Your task to perform on an android device: How much does a 2 bedroom apartment rent for in Los Angeles? Image 0: 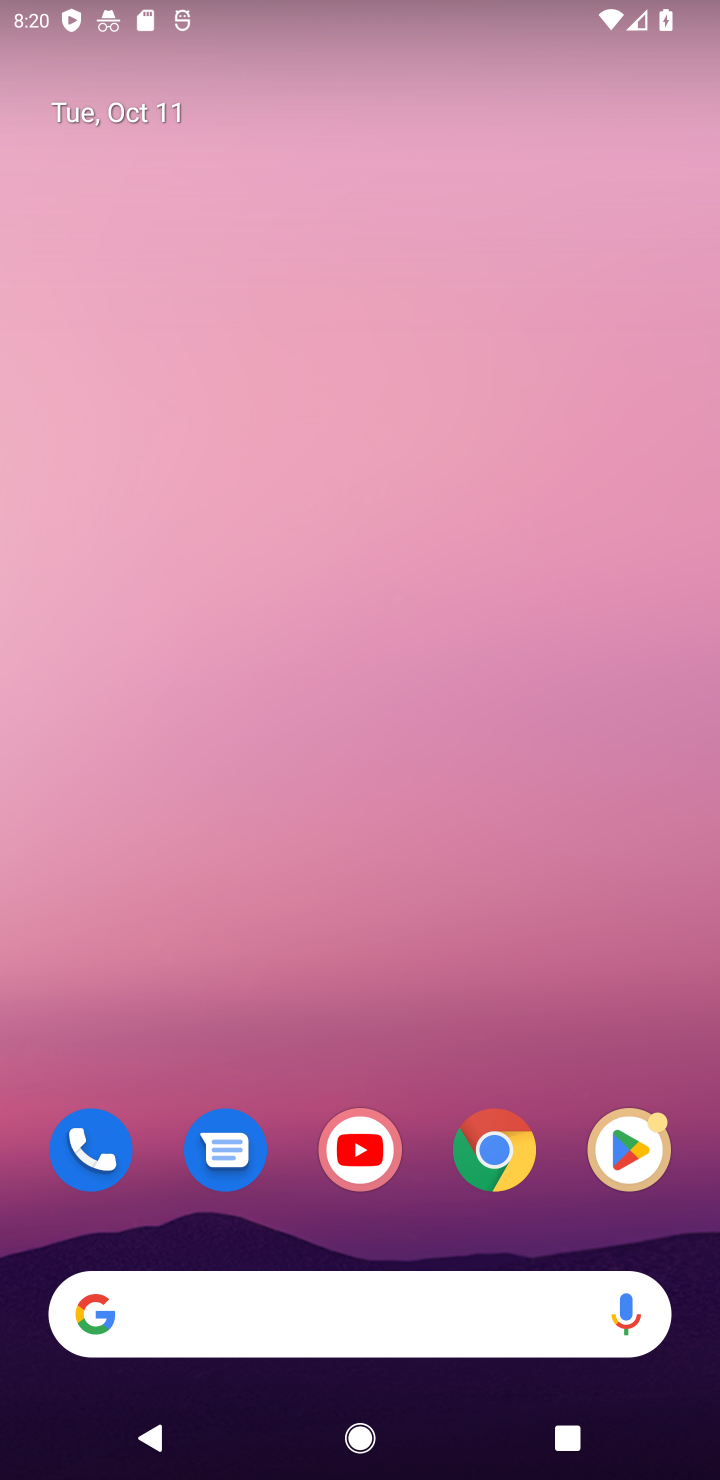
Step 0: click (496, 1157)
Your task to perform on an android device: How much does a 2 bedroom apartment rent for in Los Angeles? Image 1: 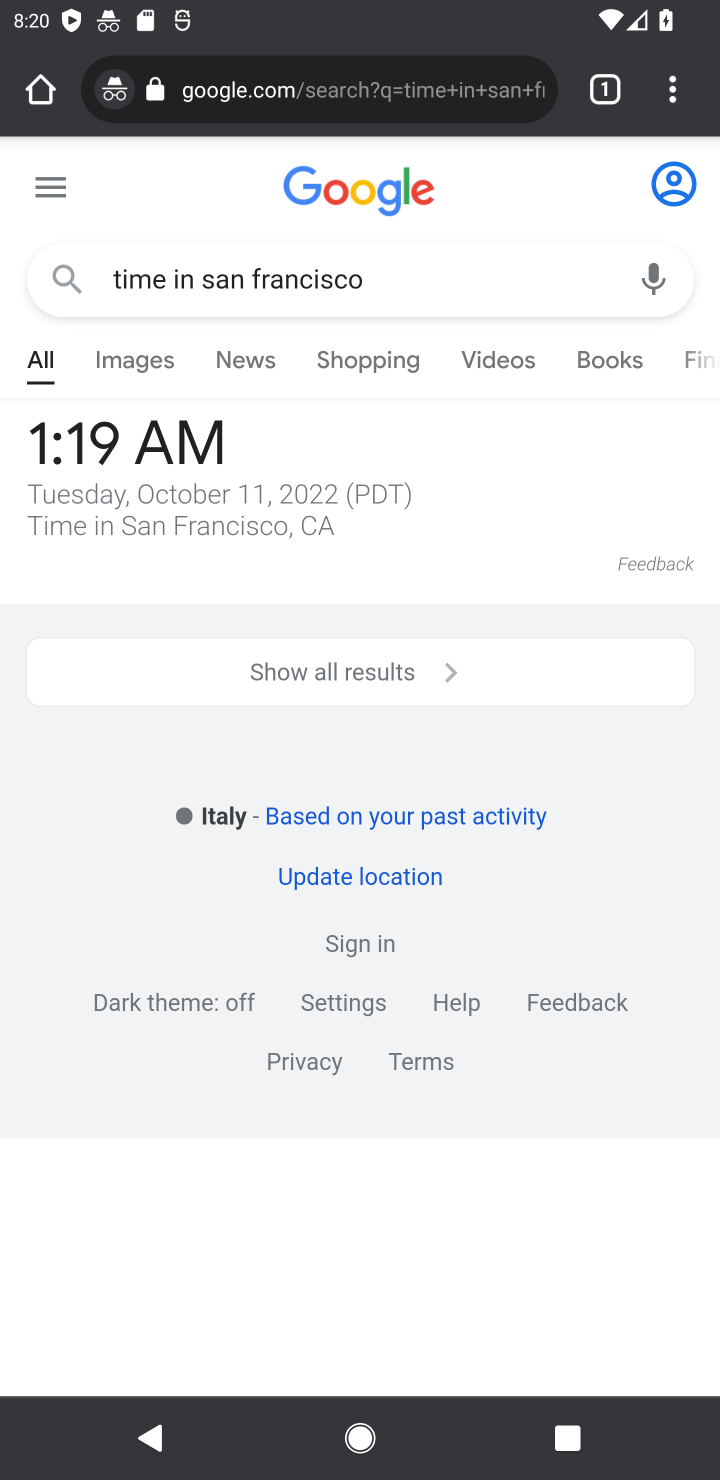
Step 1: click (267, 275)
Your task to perform on an android device: How much does a 2 bedroom apartment rent for in Los Angeles? Image 2: 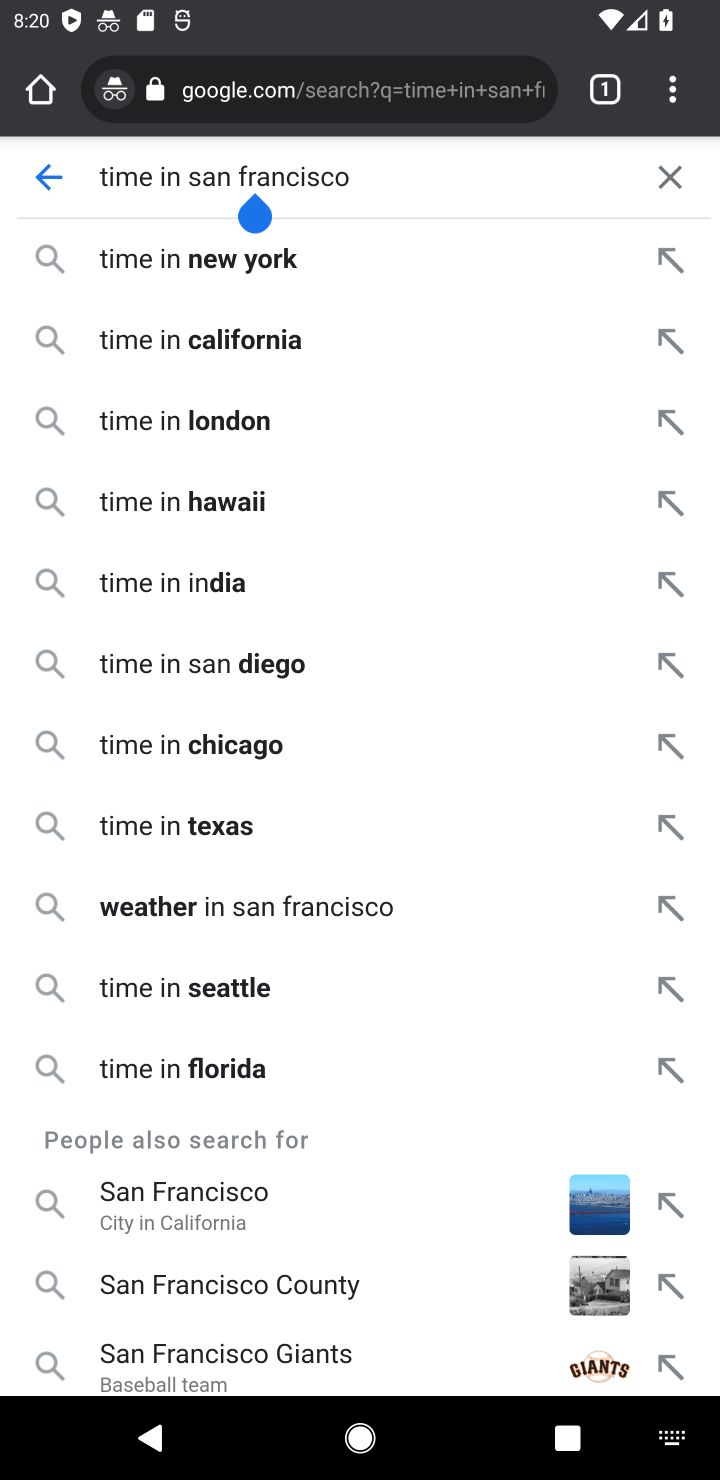
Step 2: click (392, 108)
Your task to perform on an android device: How much does a 2 bedroom apartment rent for in Los Angeles? Image 3: 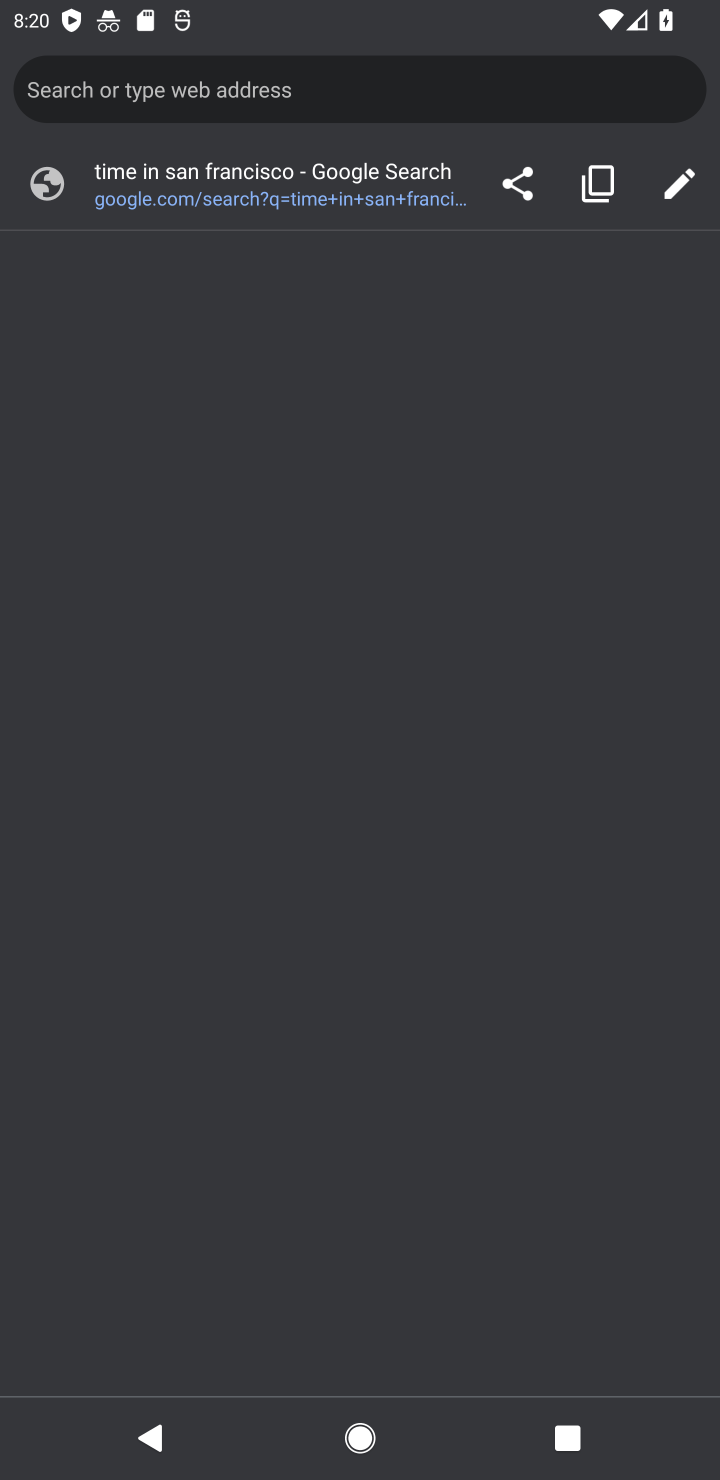
Step 3: type "rent of 2 bedroom apartment in los angeles"
Your task to perform on an android device: How much does a 2 bedroom apartment rent for in Los Angeles? Image 4: 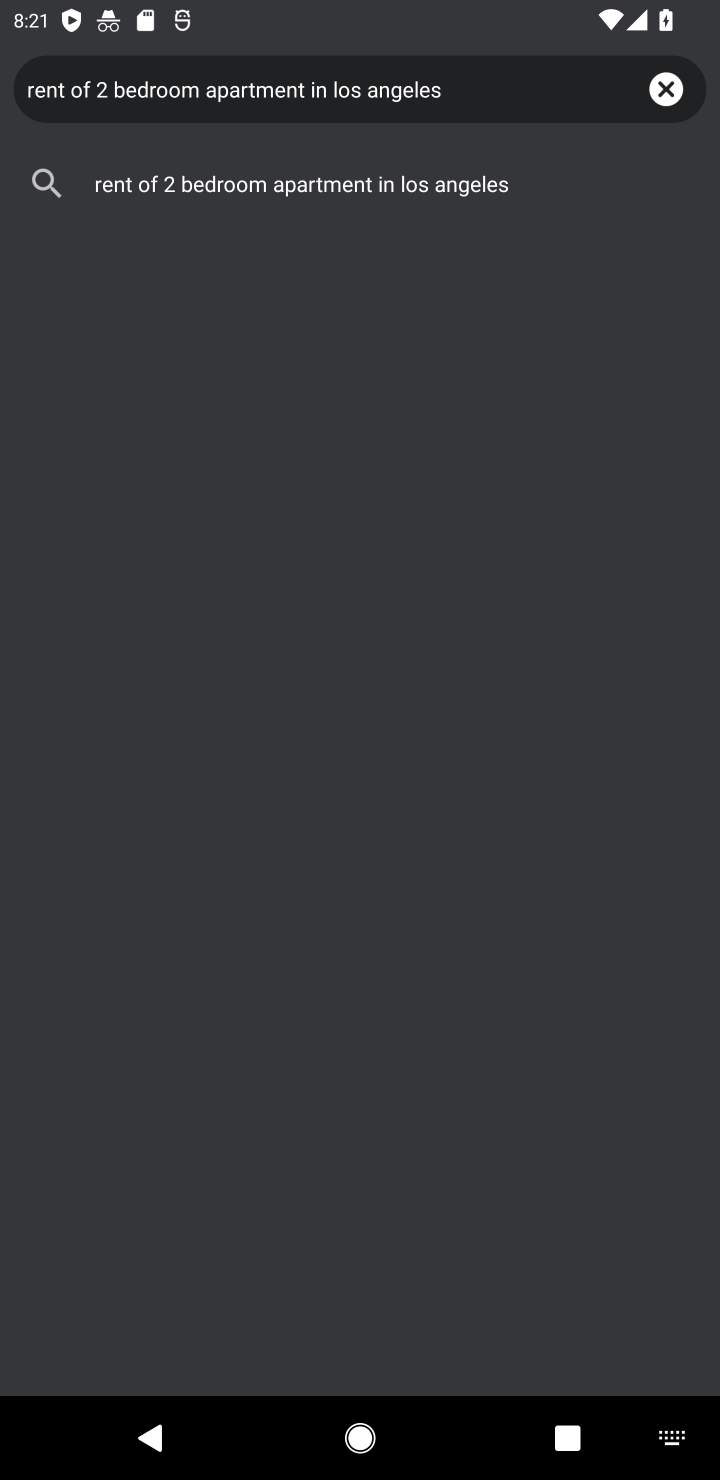
Step 4: click (335, 180)
Your task to perform on an android device: How much does a 2 bedroom apartment rent for in Los Angeles? Image 5: 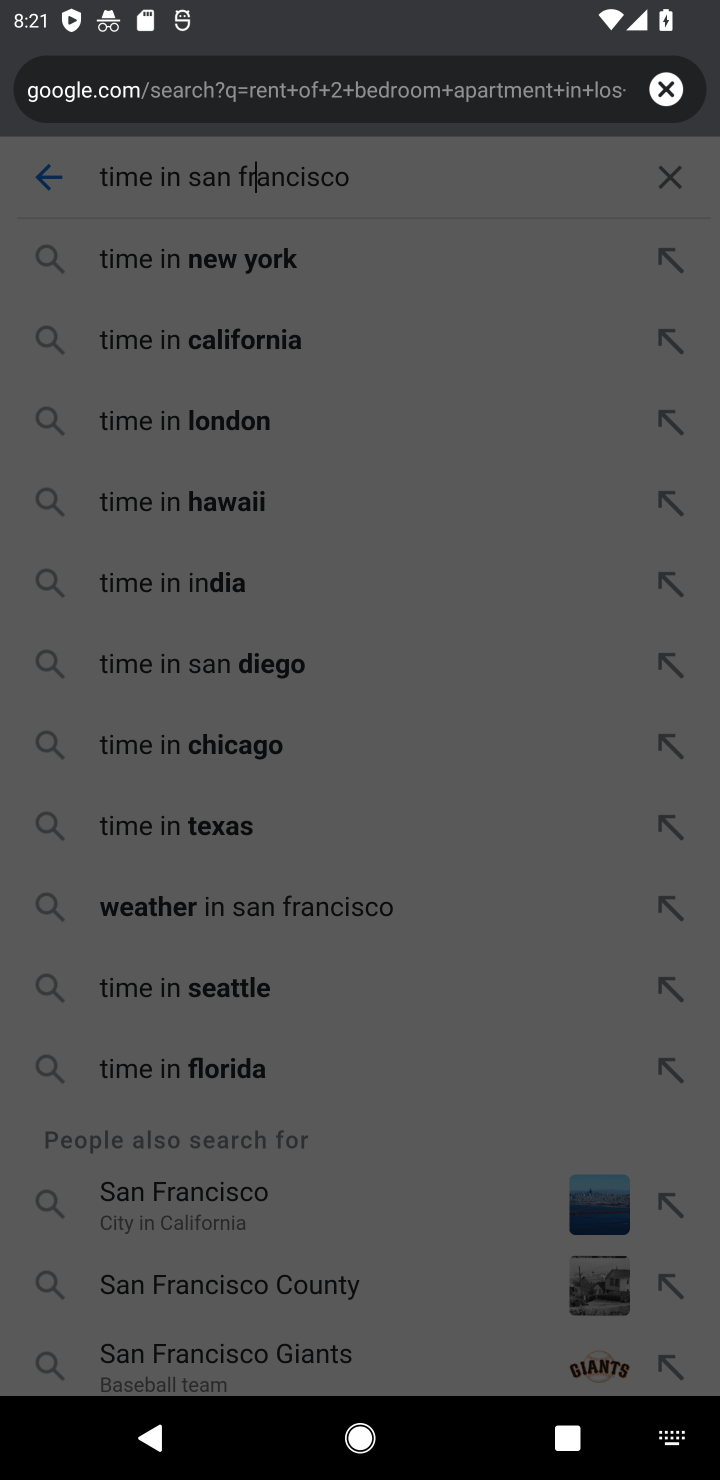
Step 5: click (328, 189)
Your task to perform on an android device: How much does a 2 bedroom apartment rent for in Los Angeles? Image 6: 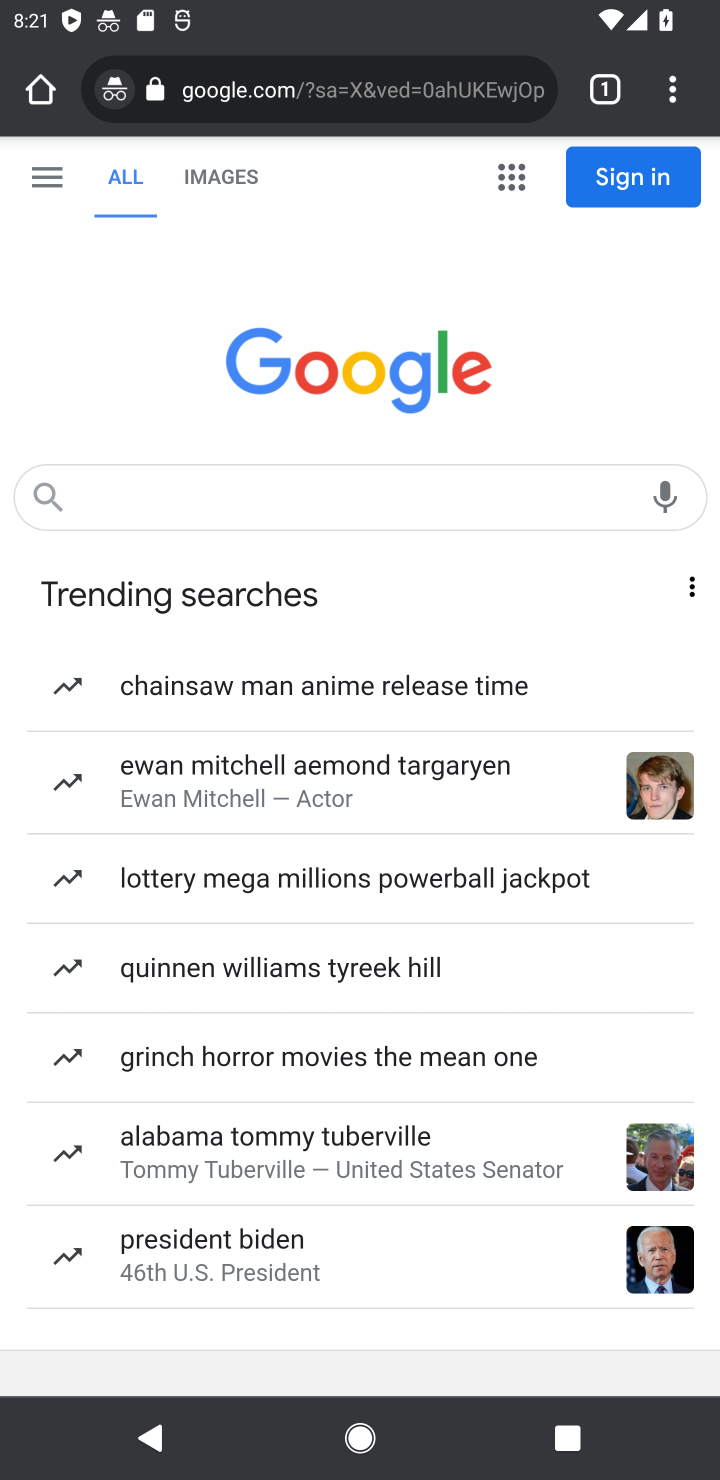
Step 6: click (326, 493)
Your task to perform on an android device: How much does a 2 bedroom apartment rent for in Los Angeles? Image 7: 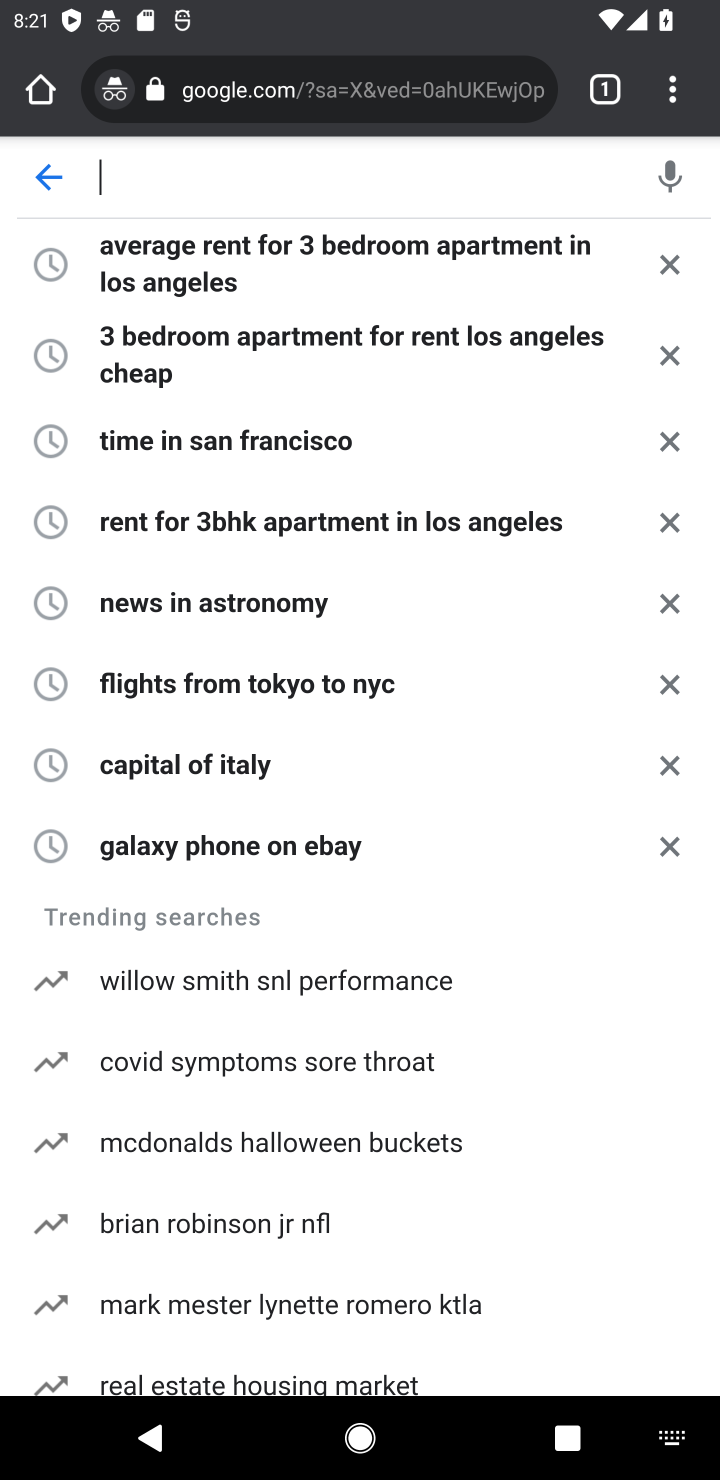
Step 7: click (225, 179)
Your task to perform on an android device: How much does a 2 bedroom apartment rent for in Los Angeles? Image 8: 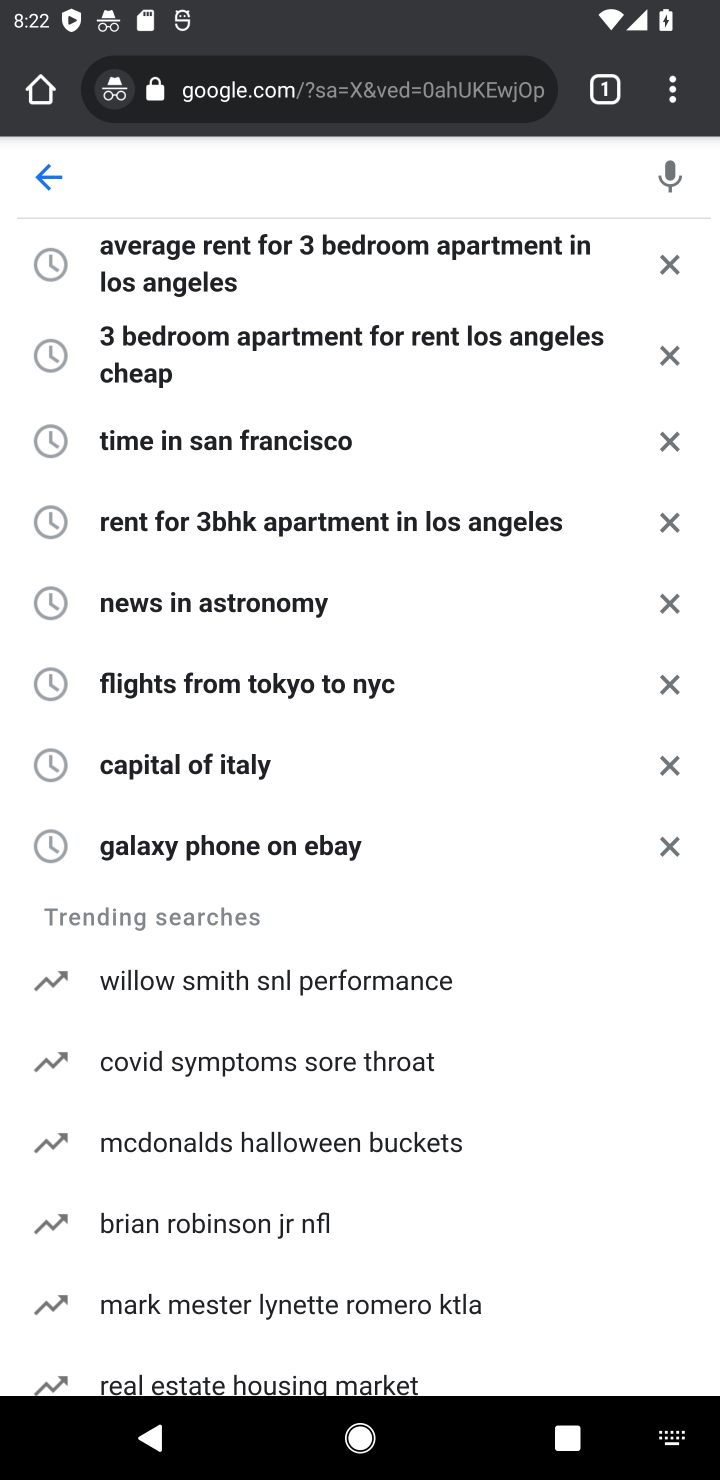
Step 8: type "rent of 2 bedroom apartment in los angeles "
Your task to perform on an android device: How much does a 2 bedroom apartment rent for in Los Angeles? Image 9: 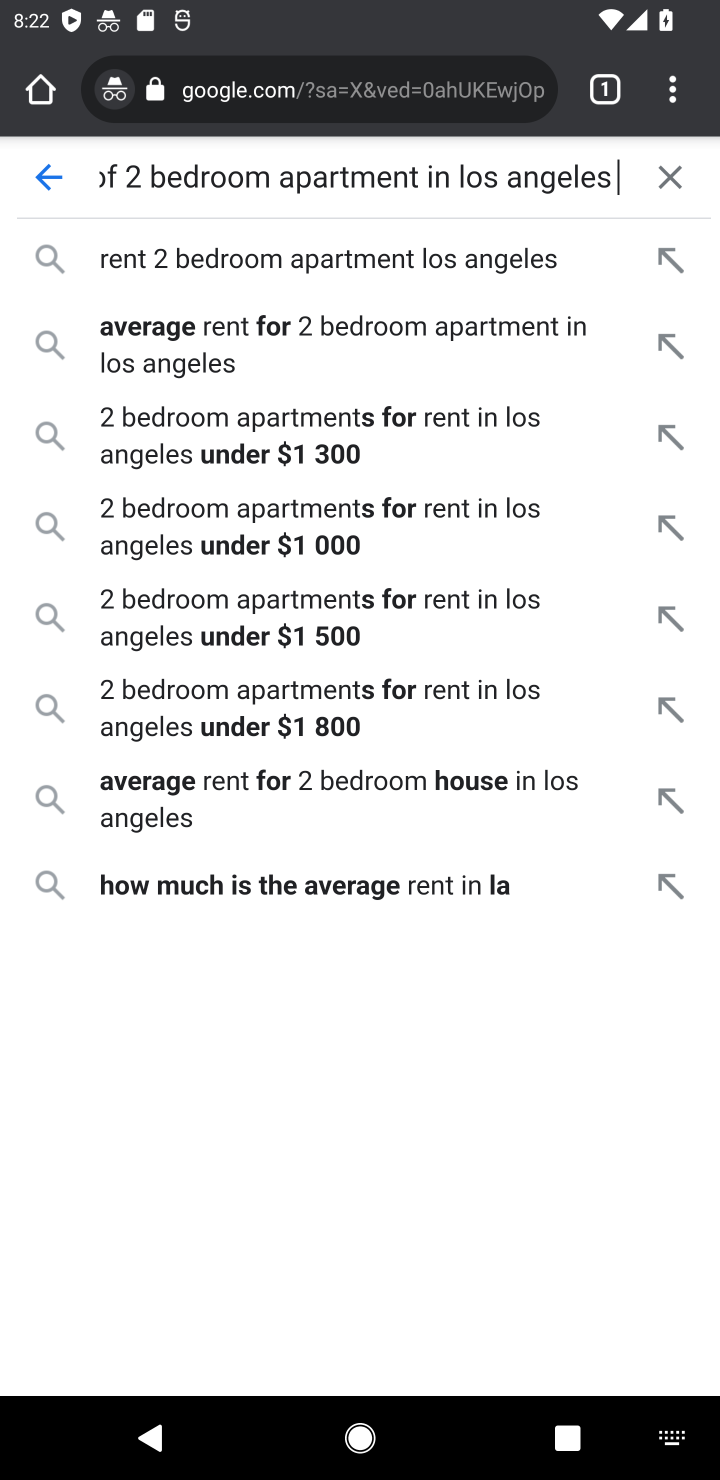
Step 9: click (216, 259)
Your task to perform on an android device: How much does a 2 bedroom apartment rent for in Los Angeles? Image 10: 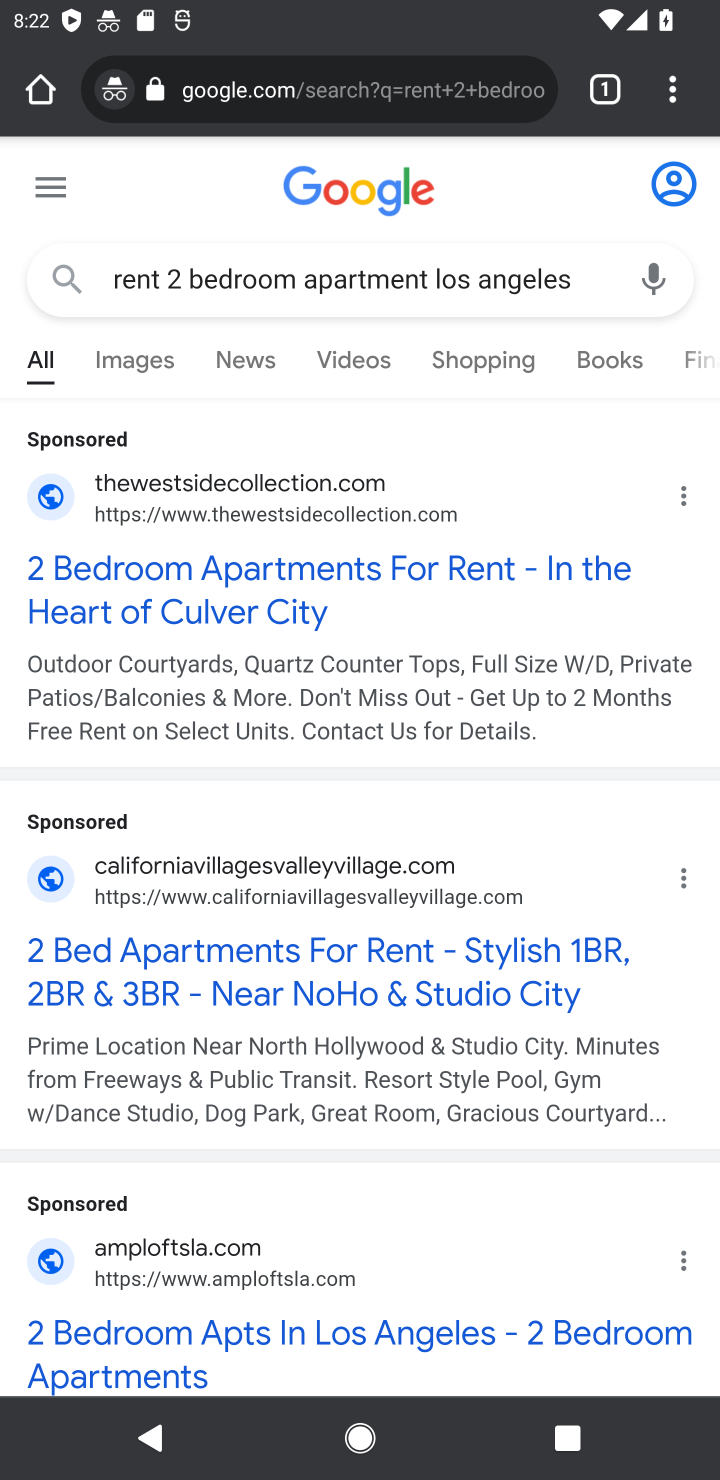
Step 10: click (273, 566)
Your task to perform on an android device: How much does a 2 bedroom apartment rent for in Los Angeles? Image 11: 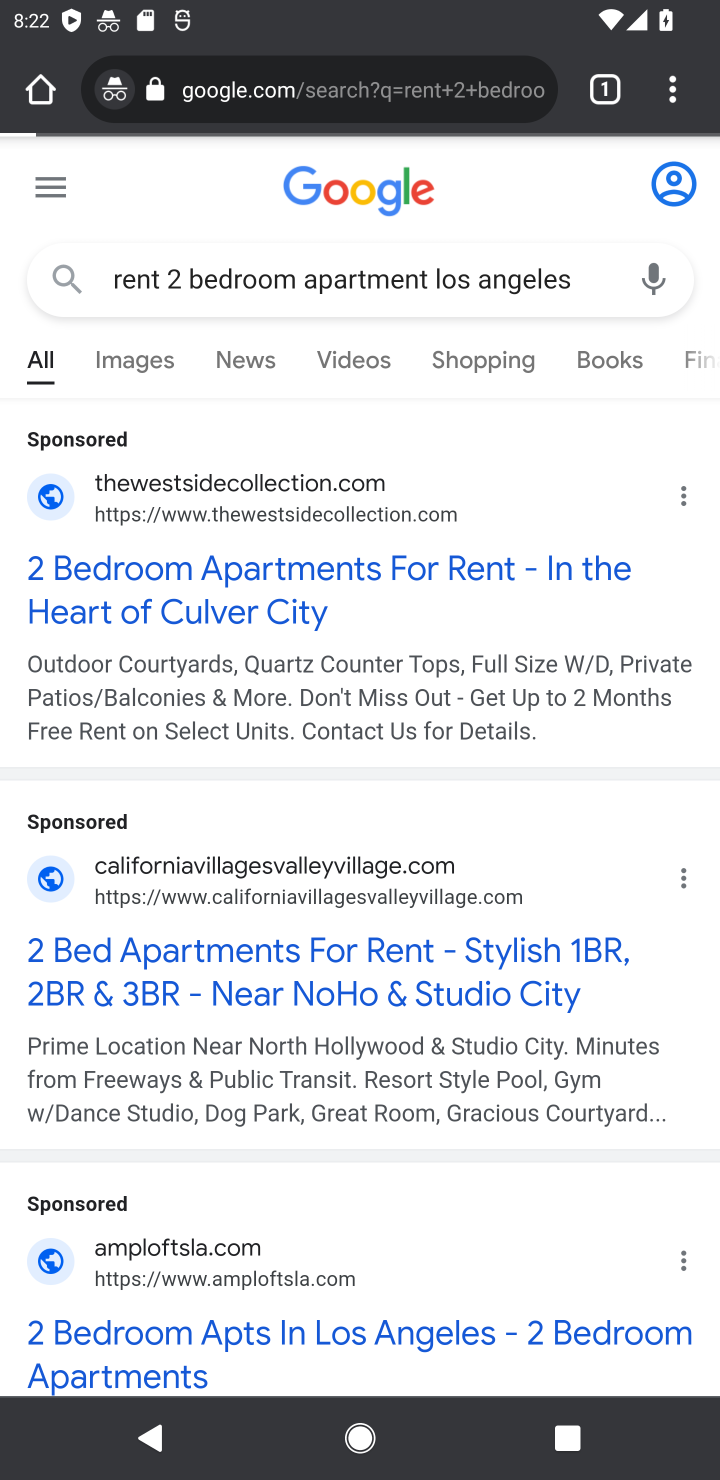
Step 11: click (190, 485)
Your task to perform on an android device: How much does a 2 bedroom apartment rent for in Los Angeles? Image 12: 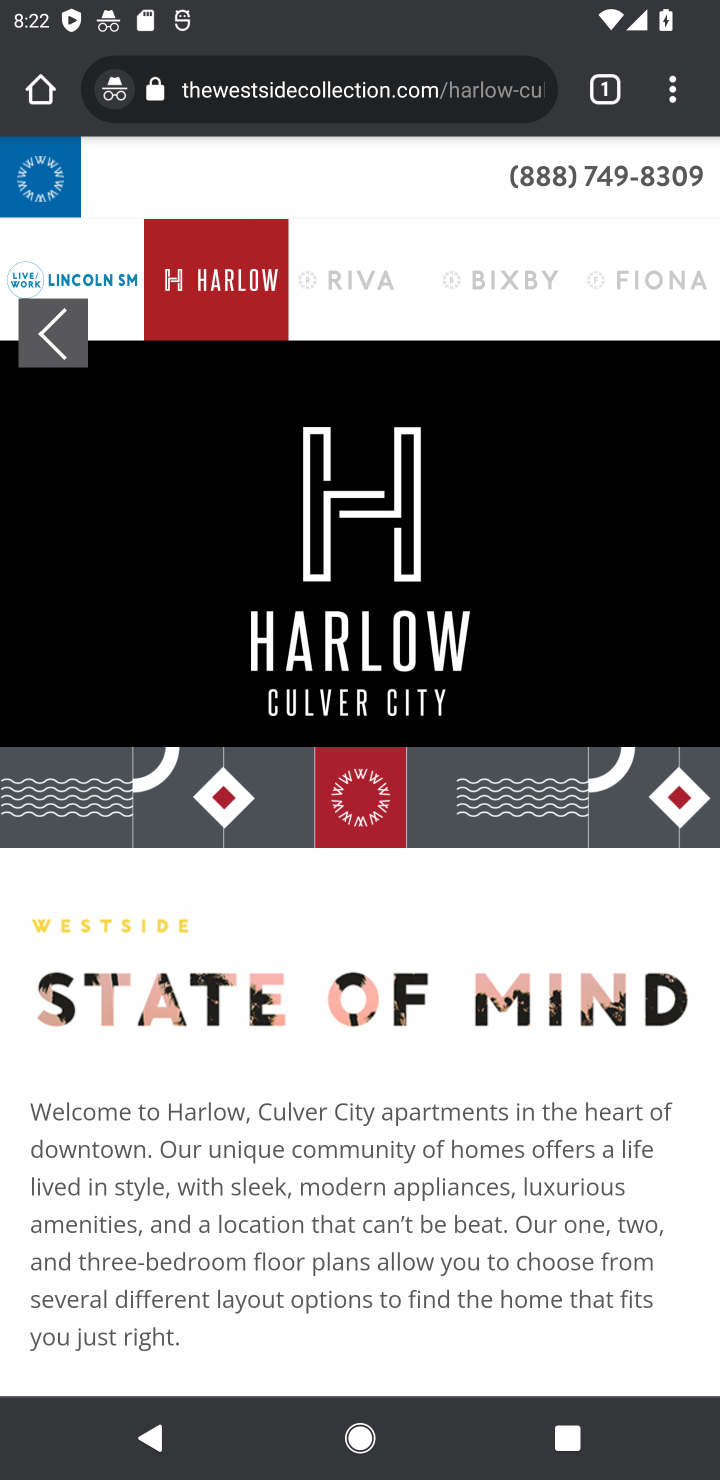
Step 12: drag from (360, 964) to (377, 423)
Your task to perform on an android device: How much does a 2 bedroom apartment rent for in Los Angeles? Image 13: 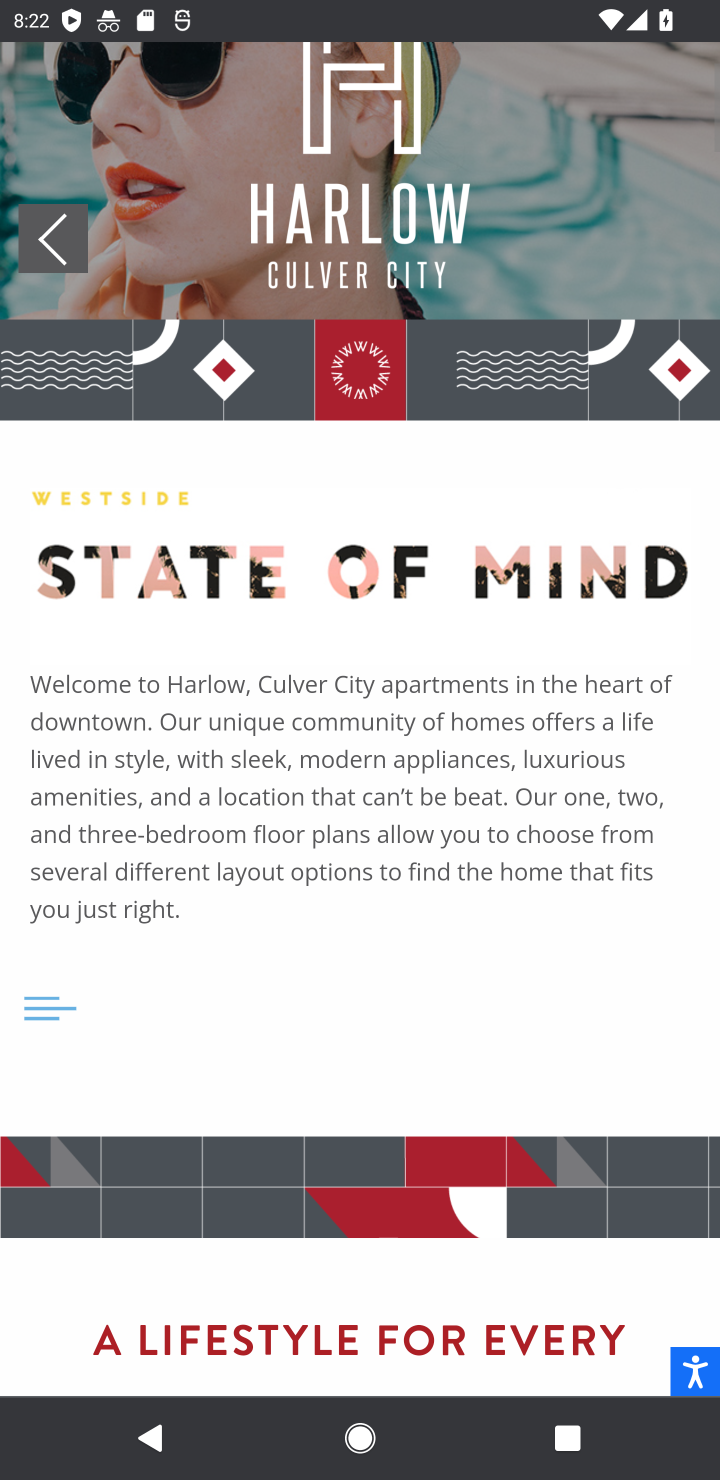
Step 13: drag from (420, 732) to (422, 214)
Your task to perform on an android device: How much does a 2 bedroom apartment rent for in Los Angeles? Image 14: 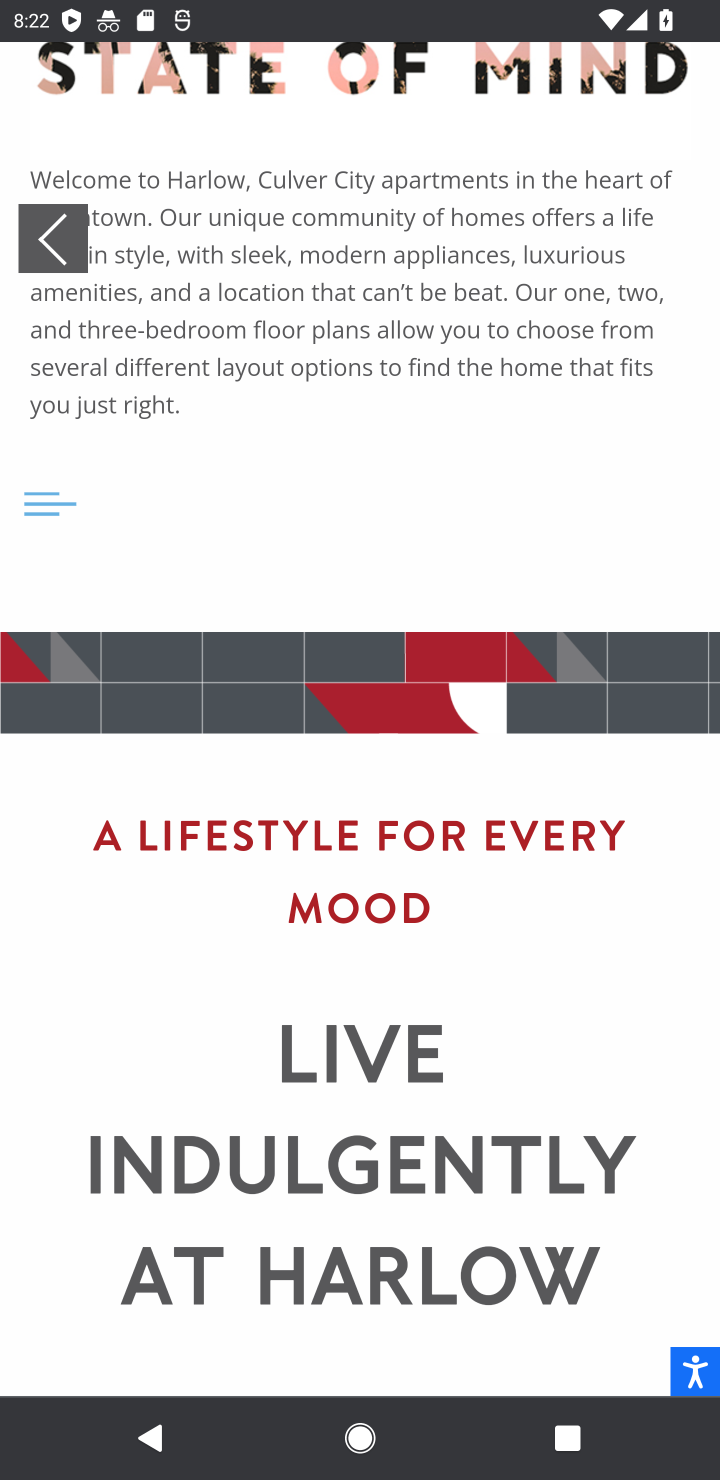
Step 14: drag from (374, 1045) to (375, 128)
Your task to perform on an android device: How much does a 2 bedroom apartment rent for in Los Angeles? Image 15: 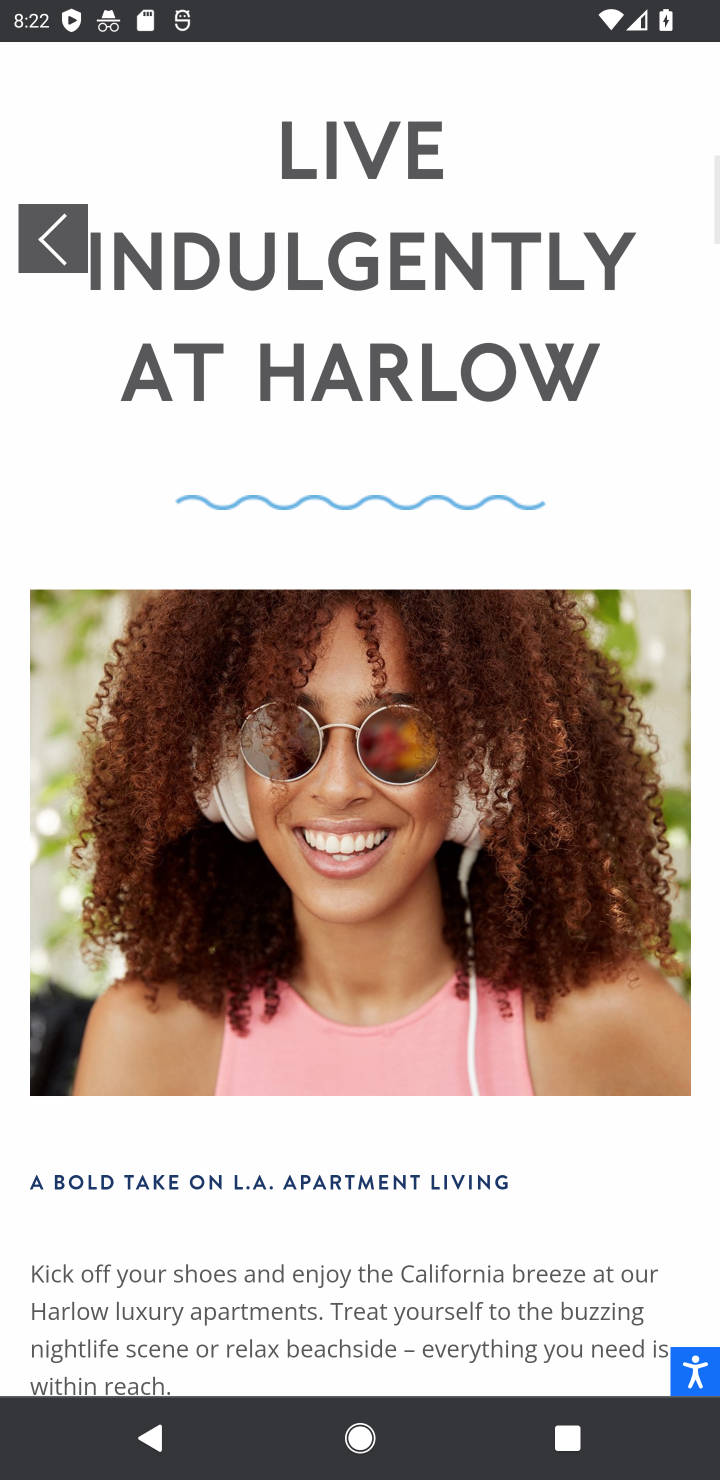
Step 15: drag from (354, 765) to (358, 246)
Your task to perform on an android device: How much does a 2 bedroom apartment rent for in Los Angeles? Image 16: 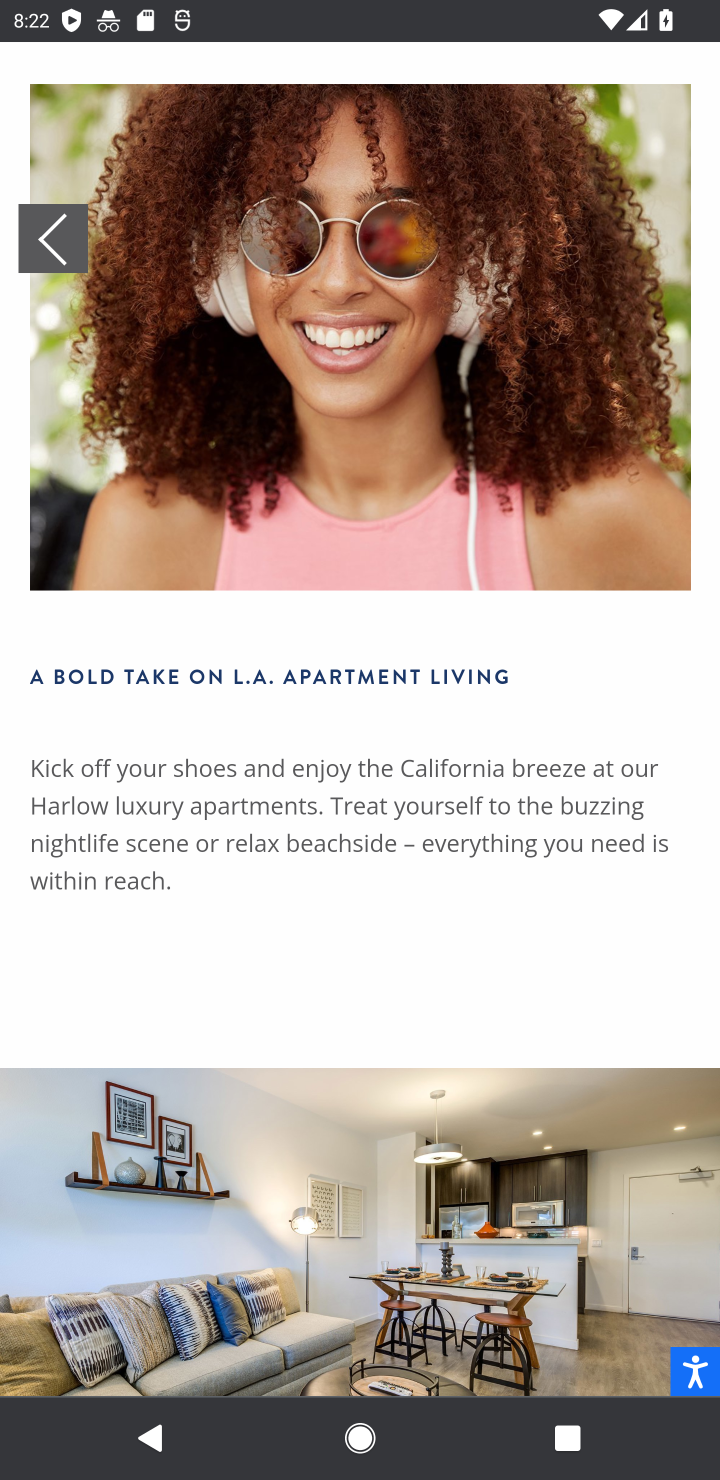
Step 16: drag from (358, 935) to (332, 434)
Your task to perform on an android device: How much does a 2 bedroom apartment rent for in Los Angeles? Image 17: 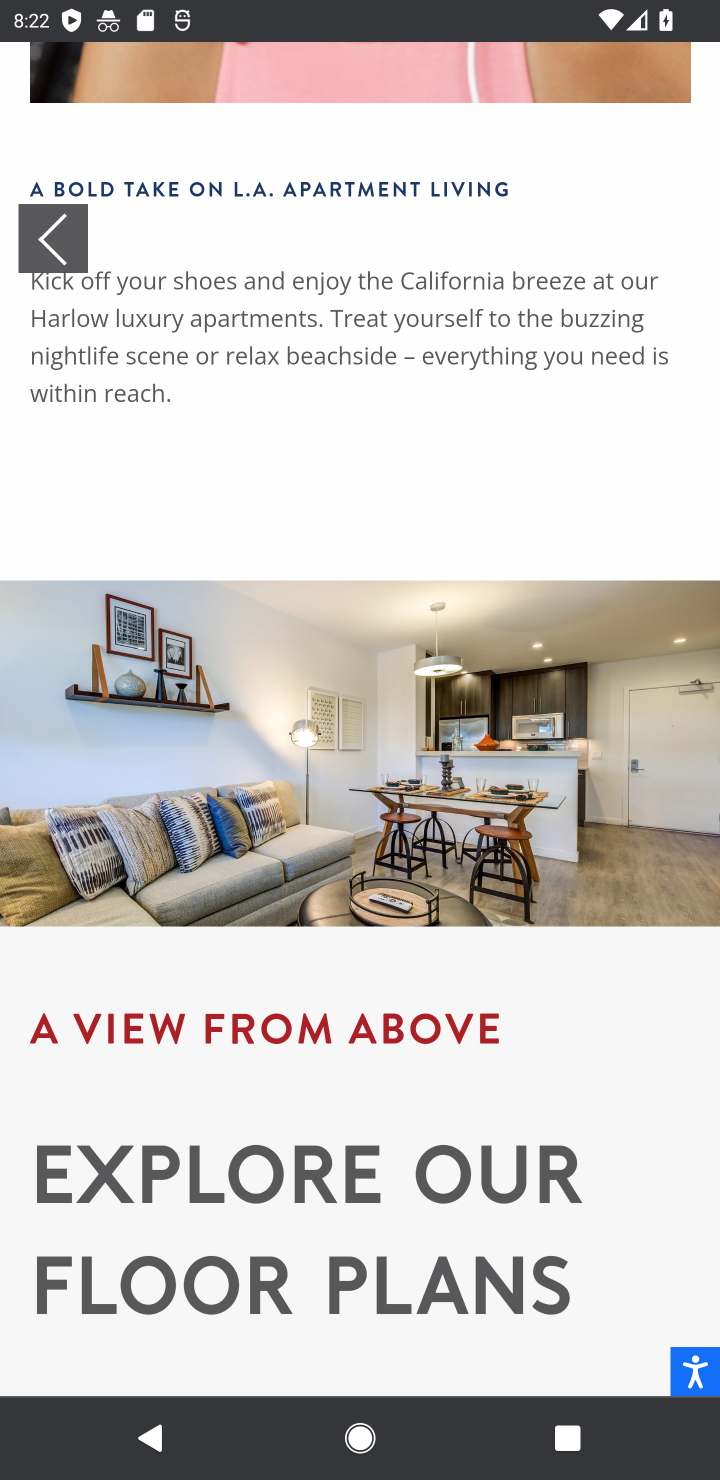
Step 17: drag from (330, 462) to (336, 1475)
Your task to perform on an android device: How much does a 2 bedroom apartment rent for in Los Angeles? Image 18: 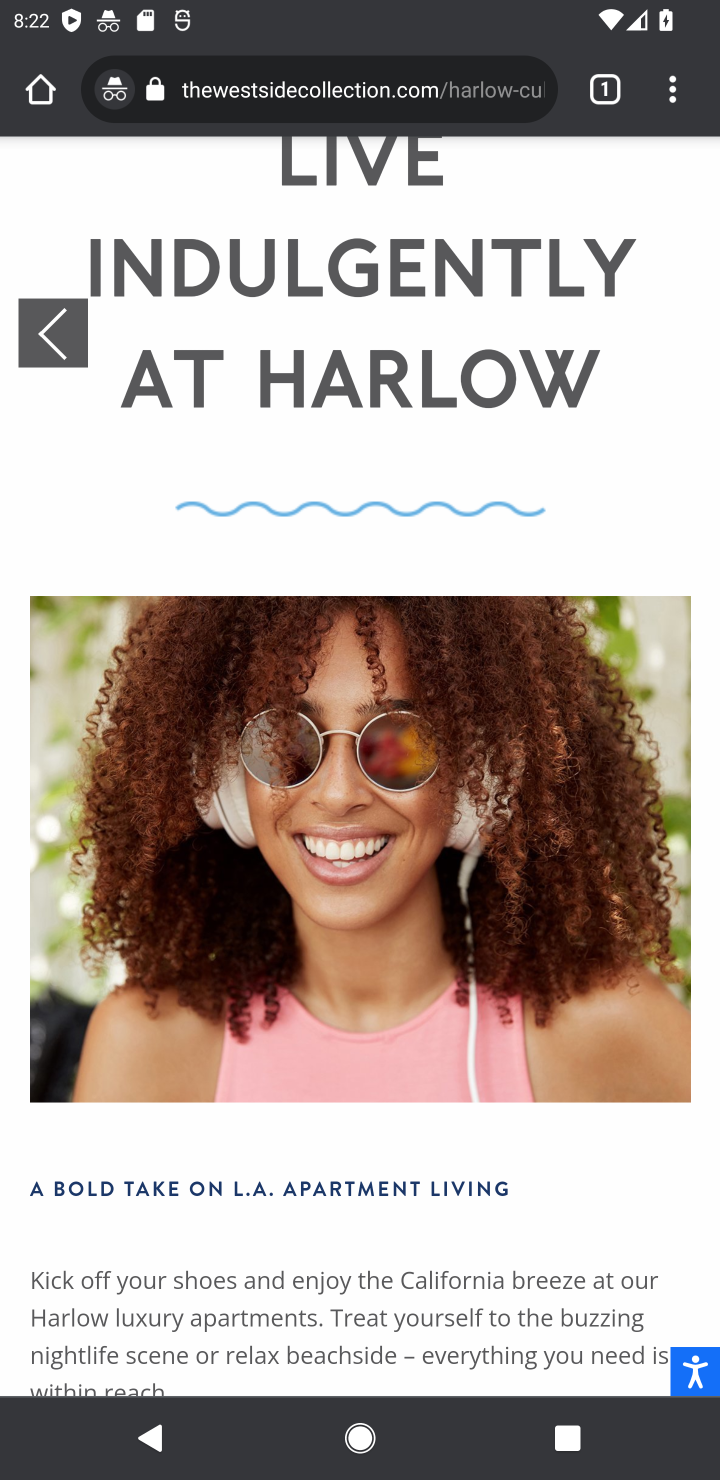
Step 18: drag from (367, 377) to (398, 1110)
Your task to perform on an android device: How much does a 2 bedroom apartment rent for in Los Angeles? Image 19: 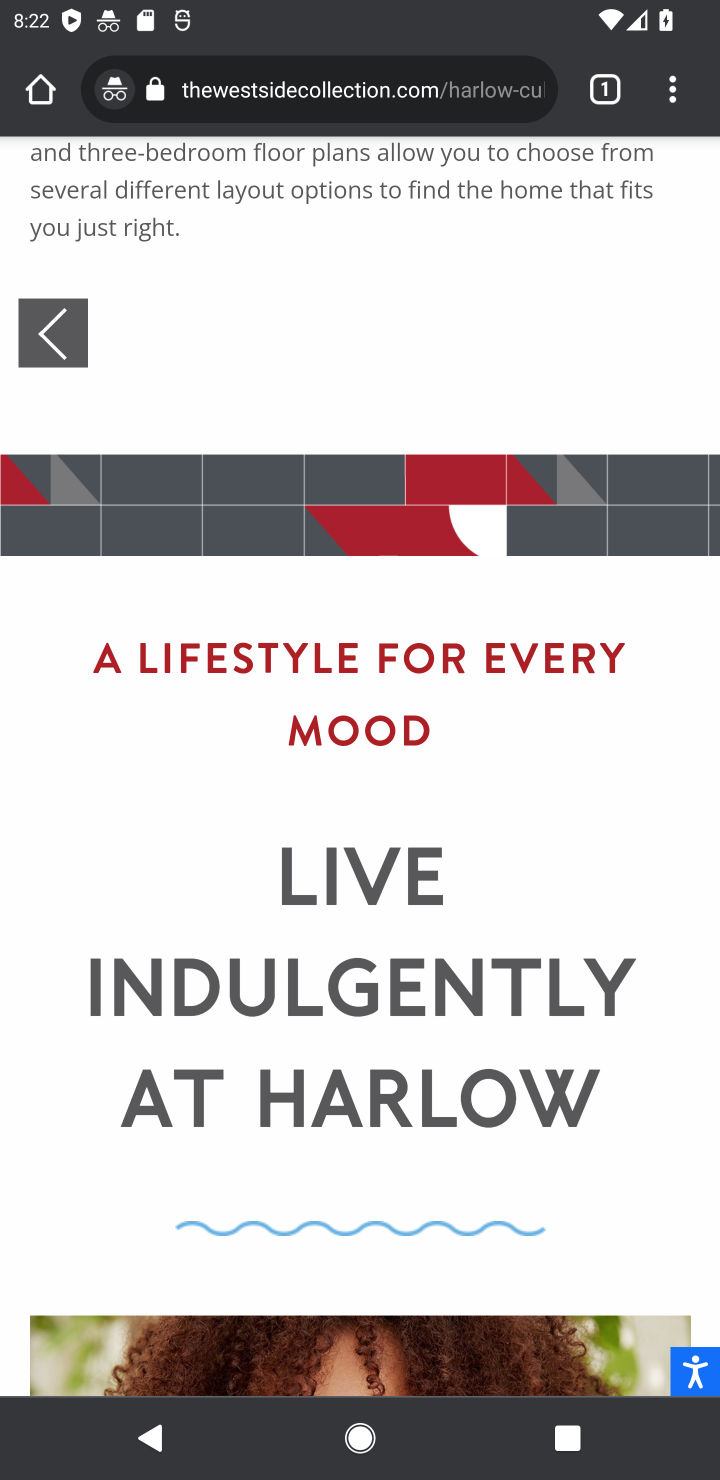
Step 19: drag from (328, 444) to (353, 1238)
Your task to perform on an android device: How much does a 2 bedroom apartment rent for in Los Angeles? Image 20: 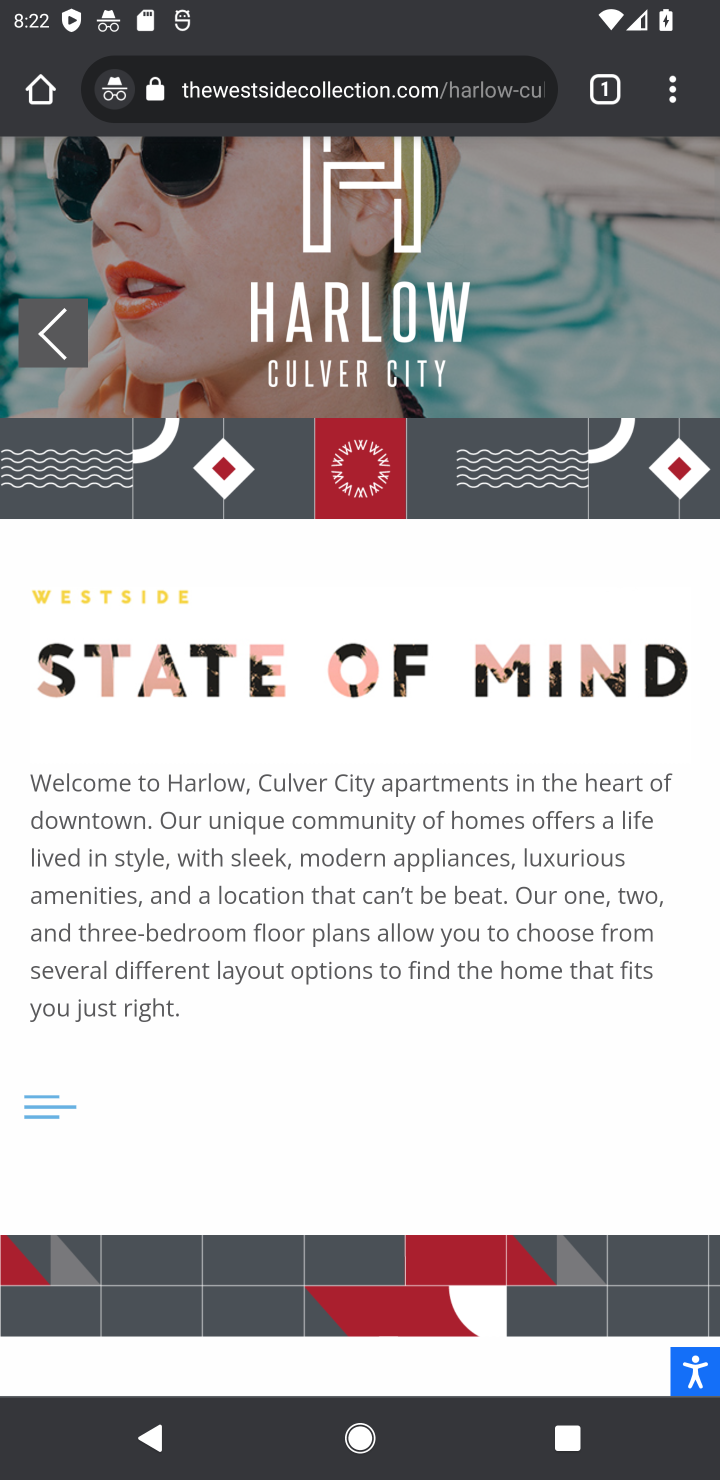
Step 20: drag from (258, 773) to (268, 1195)
Your task to perform on an android device: How much does a 2 bedroom apartment rent for in Los Angeles? Image 21: 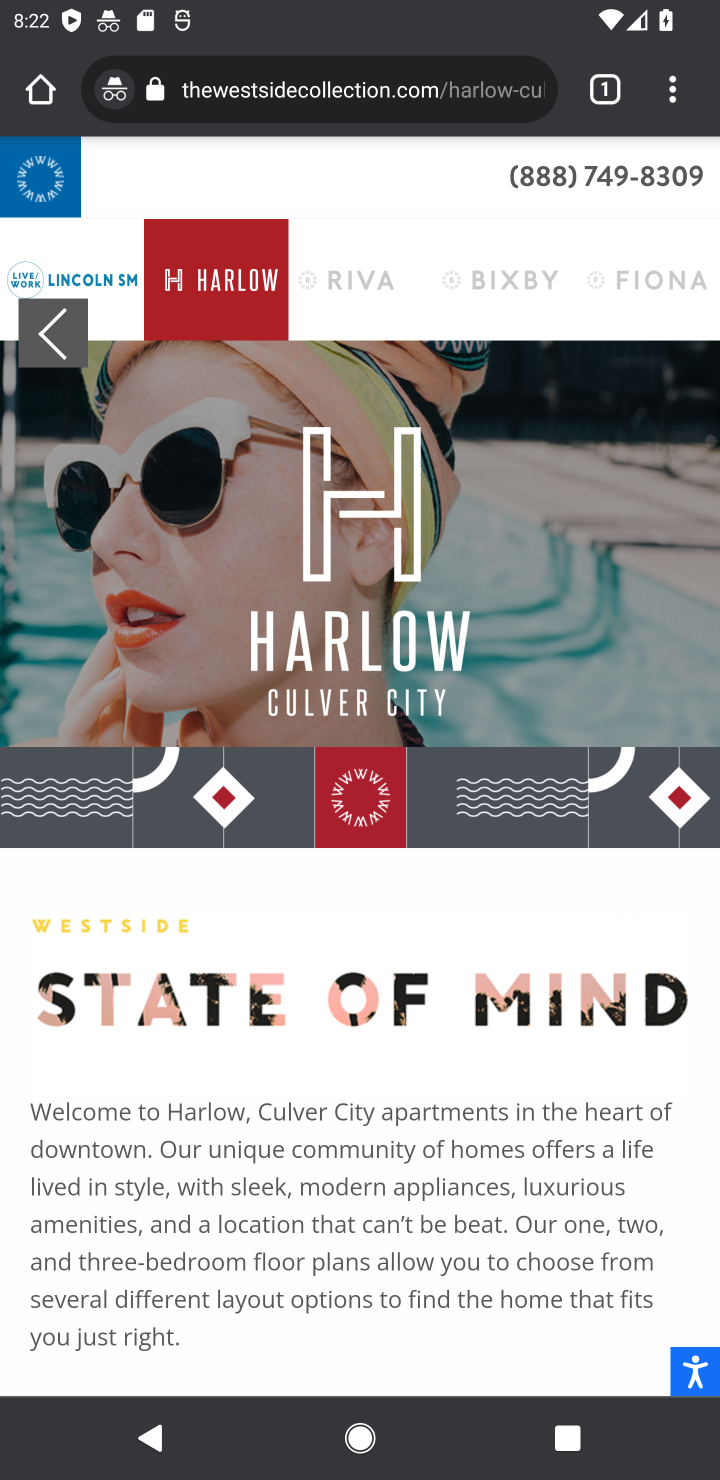
Step 21: press back button
Your task to perform on an android device: How much does a 2 bedroom apartment rent for in Los Angeles? Image 22: 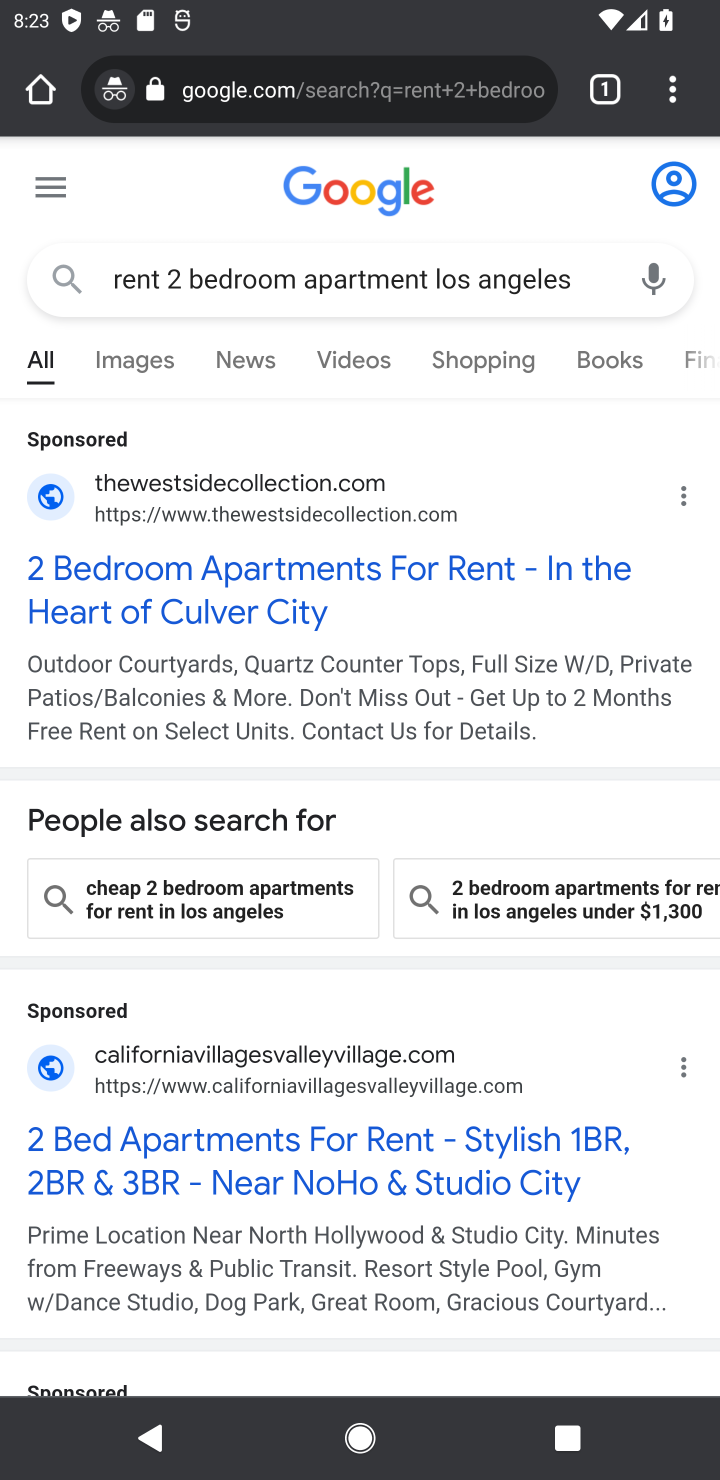
Step 22: click (233, 1160)
Your task to perform on an android device: How much does a 2 bedroom apartment rent for in Los Angeles? Image 23: 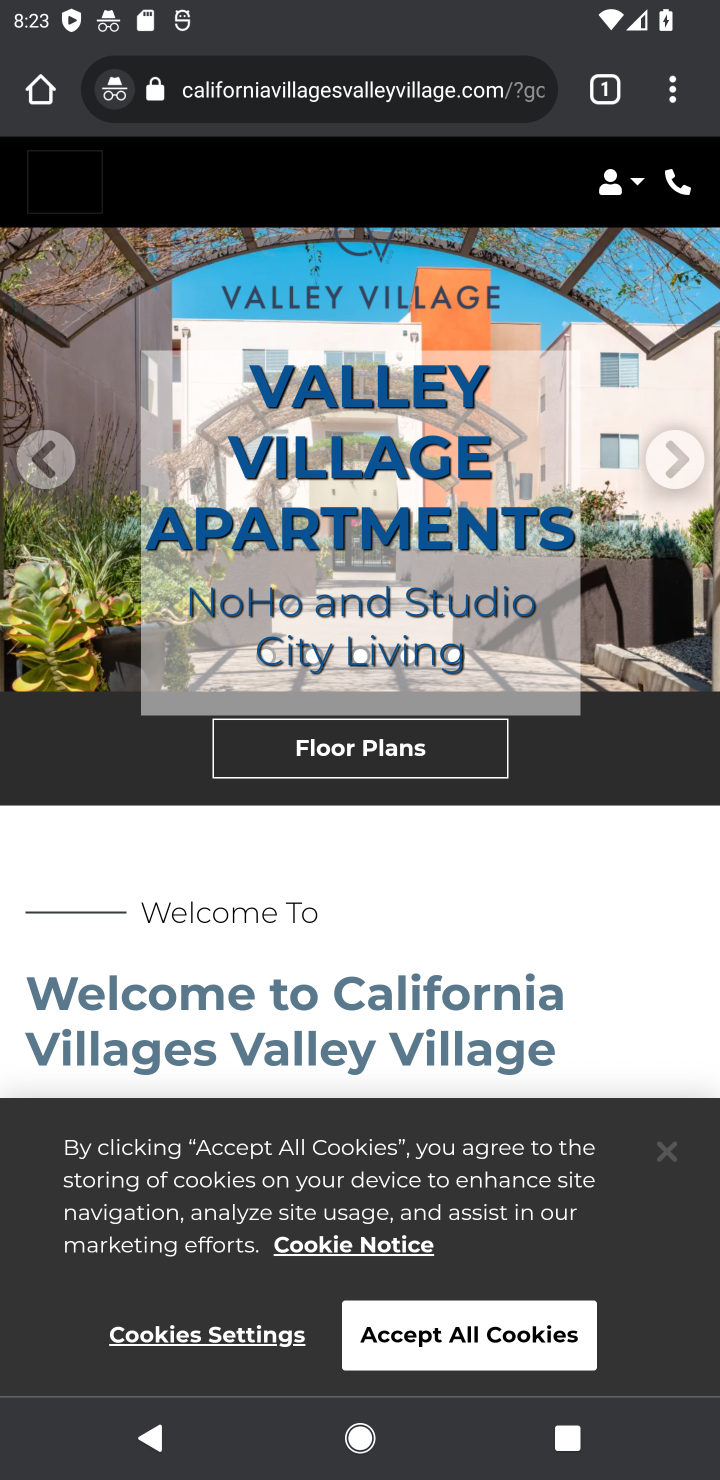
Step 23: drag from (336, 971) to (271, 488)
Your task to perform on an android device: How much does a 2 bedroom apartment rent for in Los Angeles? Image 24: 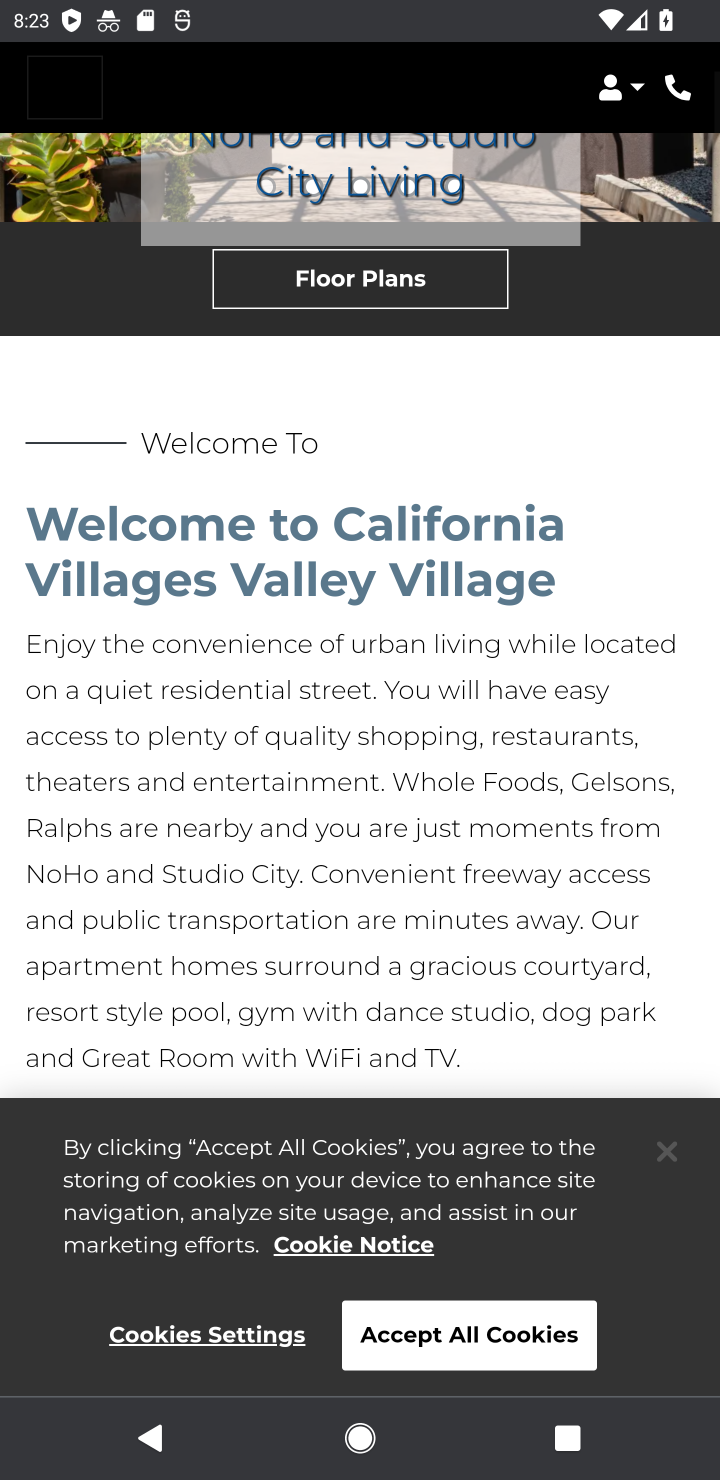
Step 24: drag from (342, 813) to (319, 391)
Your task to perform on an android device: How much does a 2 bedroom apartment rent for in Los Angeles? Image 25: 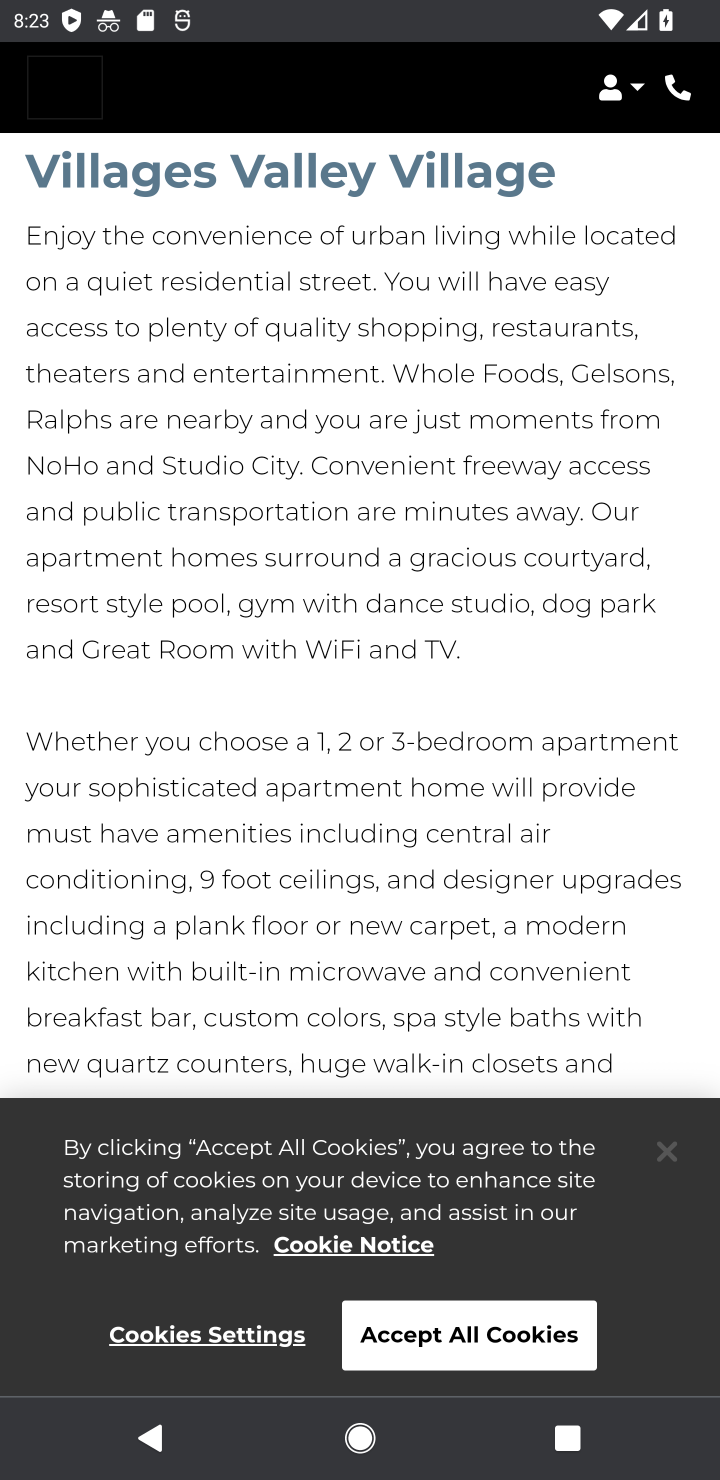
Step 25: drag from (336, 962) to (309, 359)
Your task to perform on an android device: How much does a 2 bedroom apartment rent for in Los Angeles? Image 26: 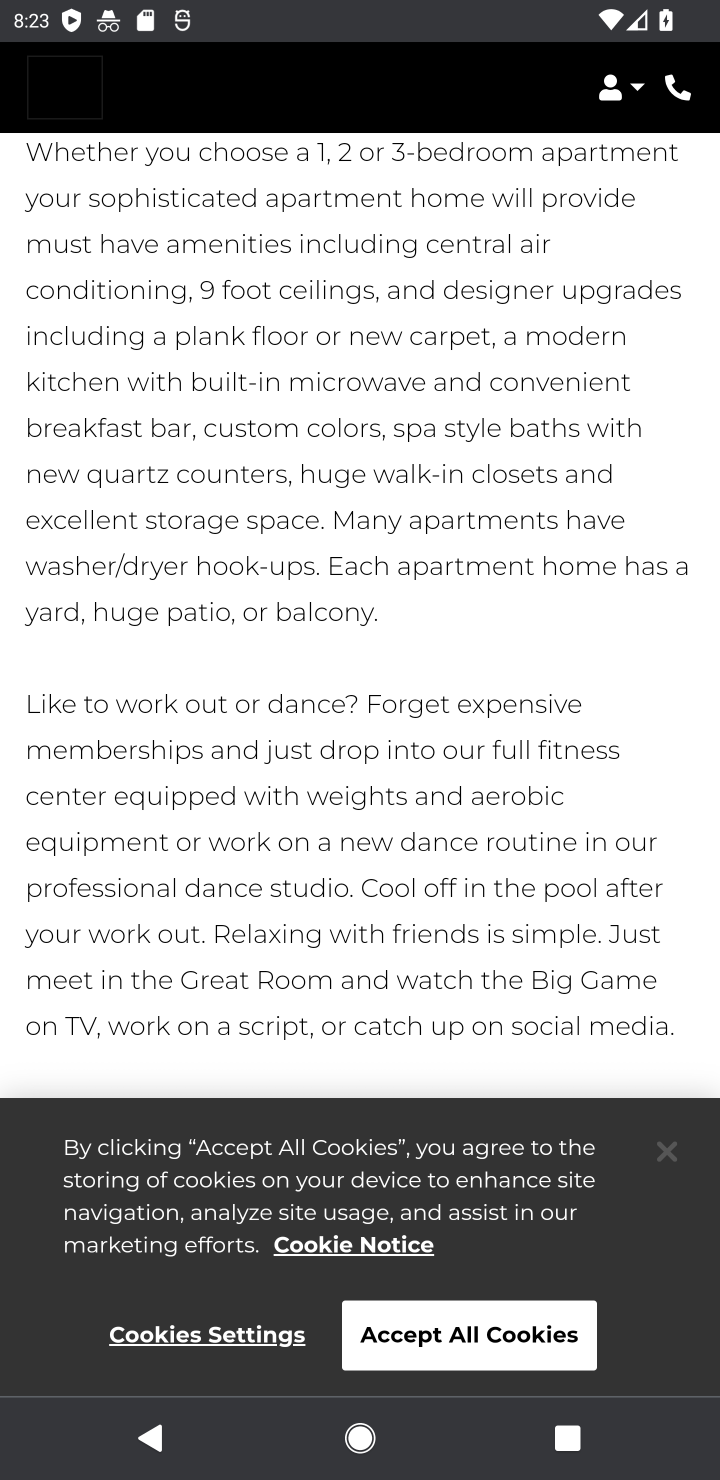
Step 26: drag from (338, 835) to (356, 398)
Your task to perform on an android device: How much does a 2 bedroom apartment rent for in Los Angeles? Image 27: 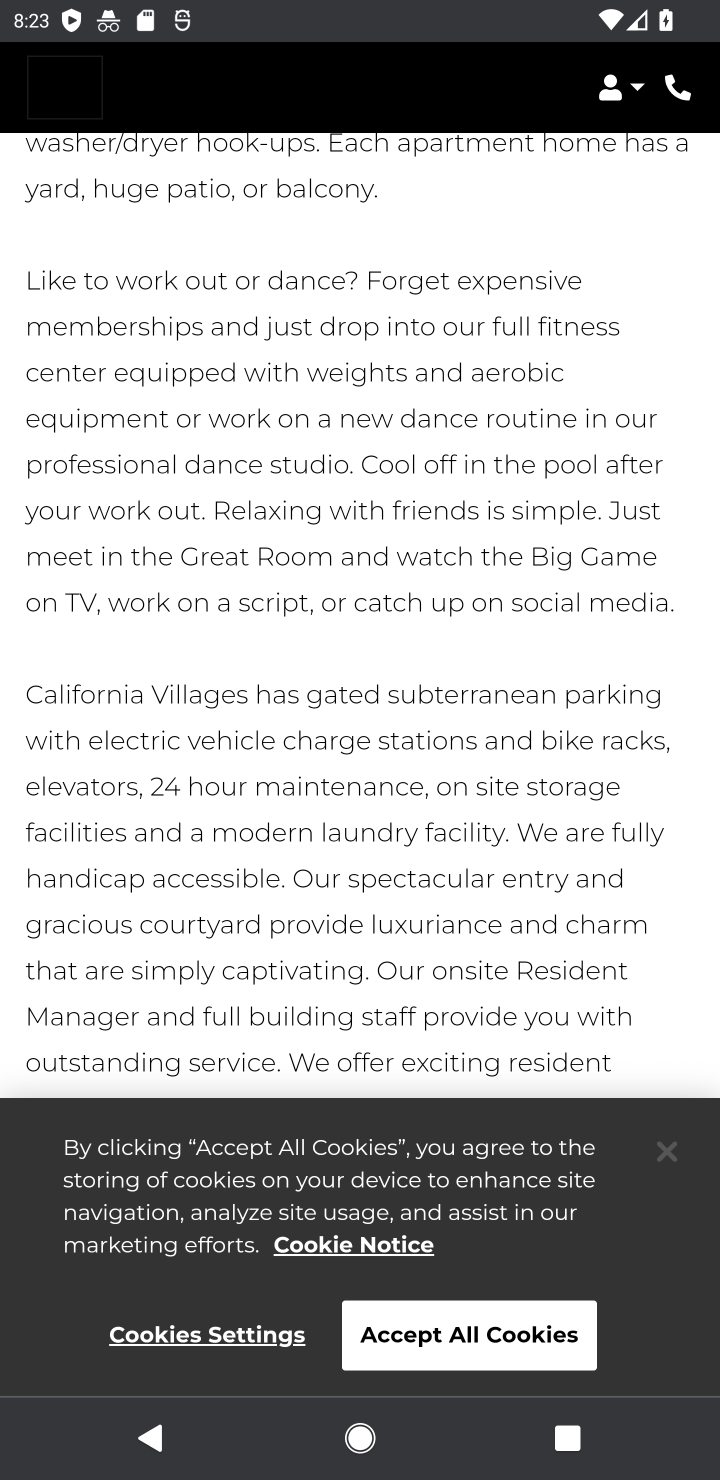
Step 27: drag from (357, 926) to (345, 388)
Your task to perform on an android device: How much does a 2 bedroom apartment rent for in Los Angeles? Image 28: 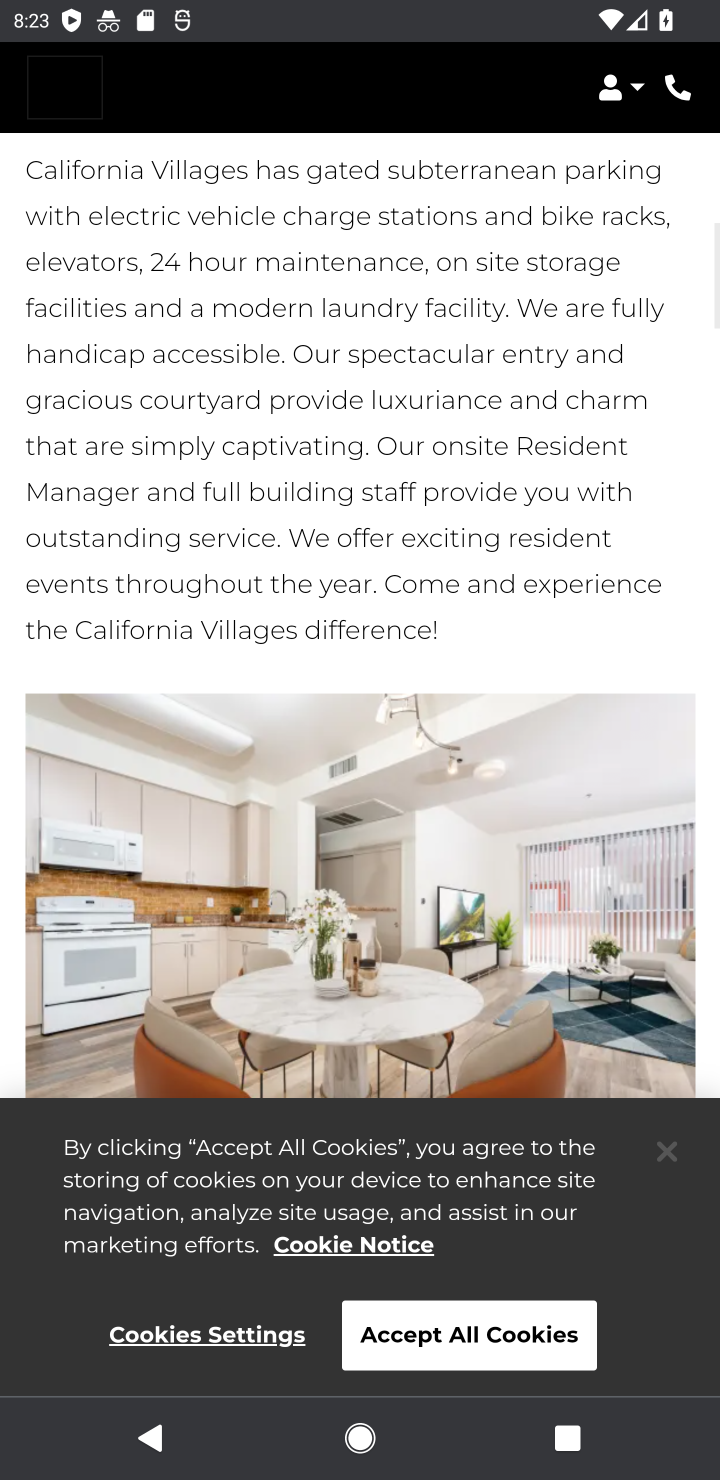
Step 28: drag from (285, 656) to (285, 347)
Your task to perform on an android device: How much does a 2 bedroom apartment rent for in Los Angeles? Image 29: 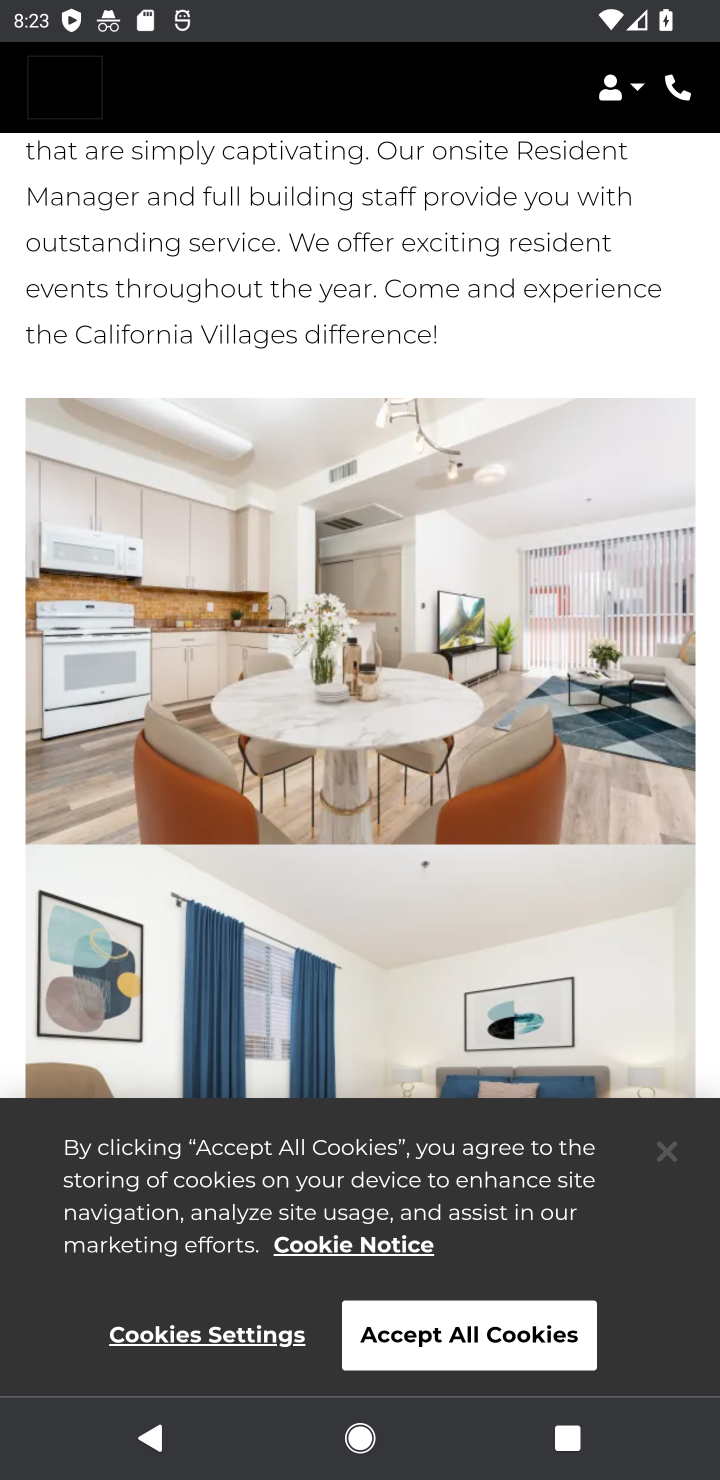
Step 29: drag from (272, 863) to (328, 353)
Your task to perform on an android device: How much does a 2 bedroom apartment rent for in Los Angeles? Image 30: 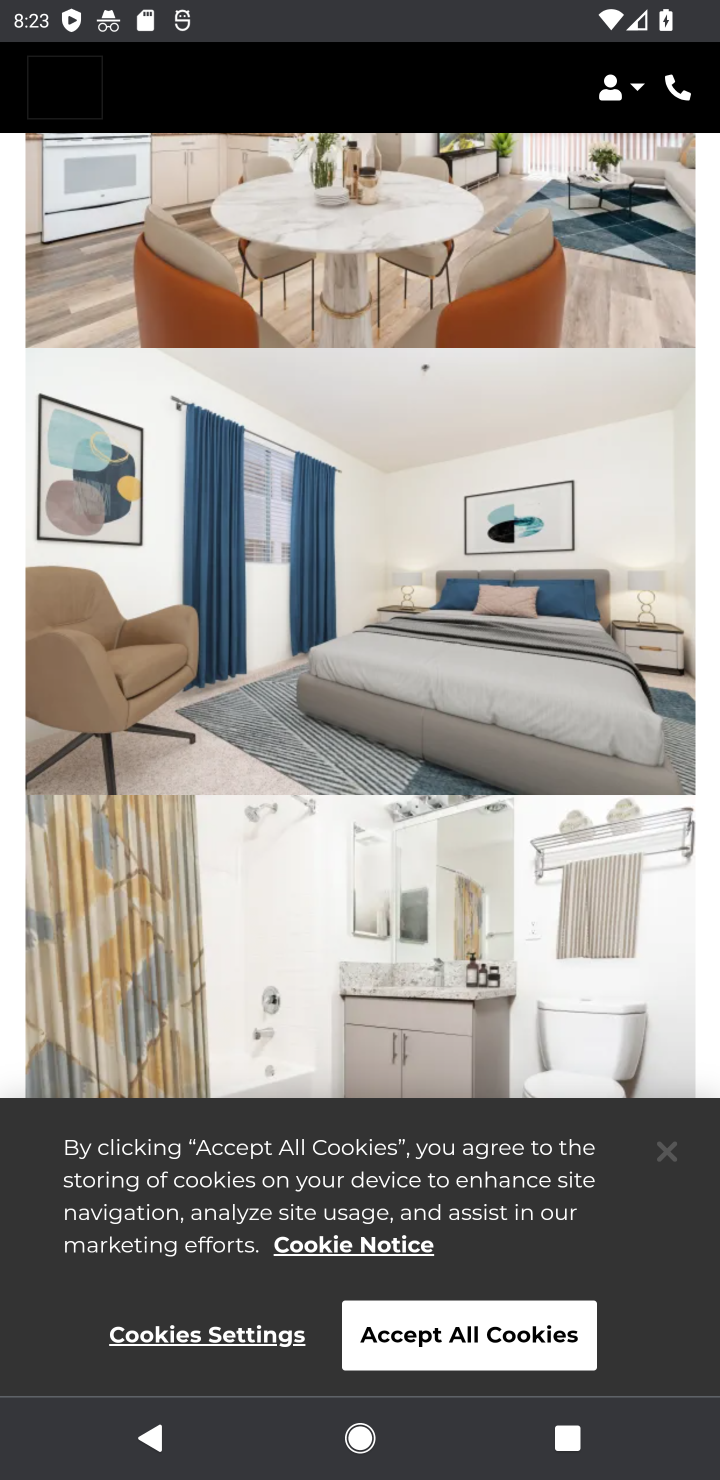
Step 30: drag from (310, 865) to (310, 311)
Your task to perform on an android device: How much does a 2 bedroom apartment rent for in Los Angeles? Image 31: 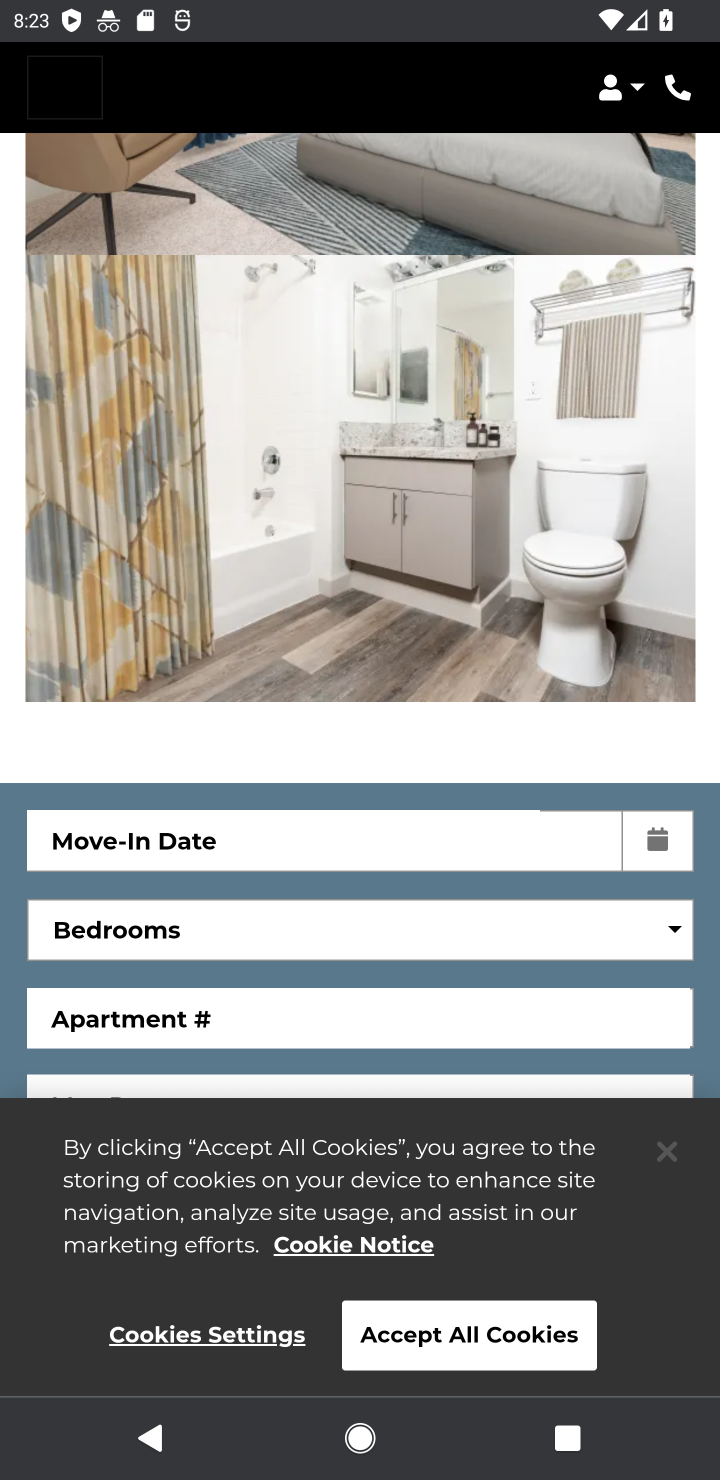
Step 31: drag from (310, 504) to (324, 315)
Your task to perform on an android device: How much does a 2 bedroom apartment rent for in Los Angeles? Image 32: 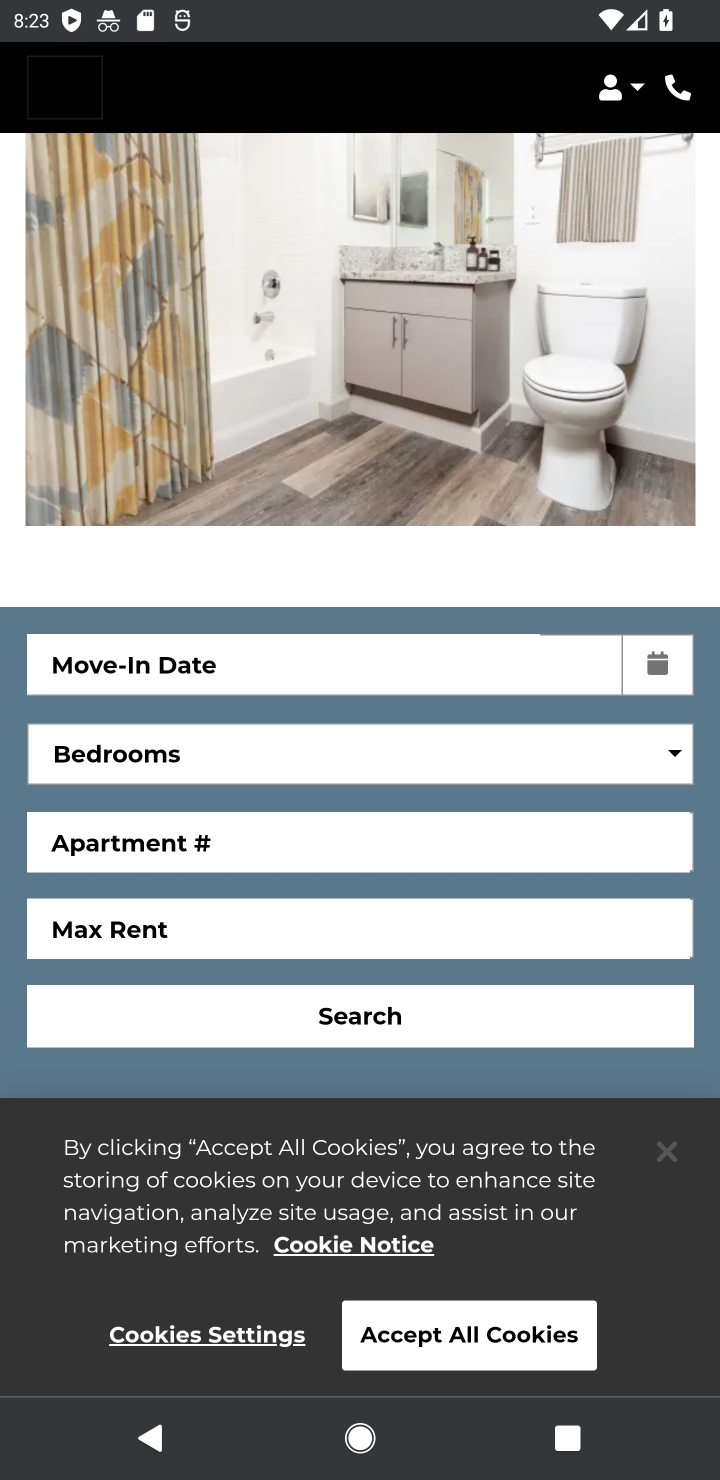
Step 32: click (669, 754)
Your task to perform on an android device: How much does a 2 bedroom apartment rent for in Los Angeles? Image 33: 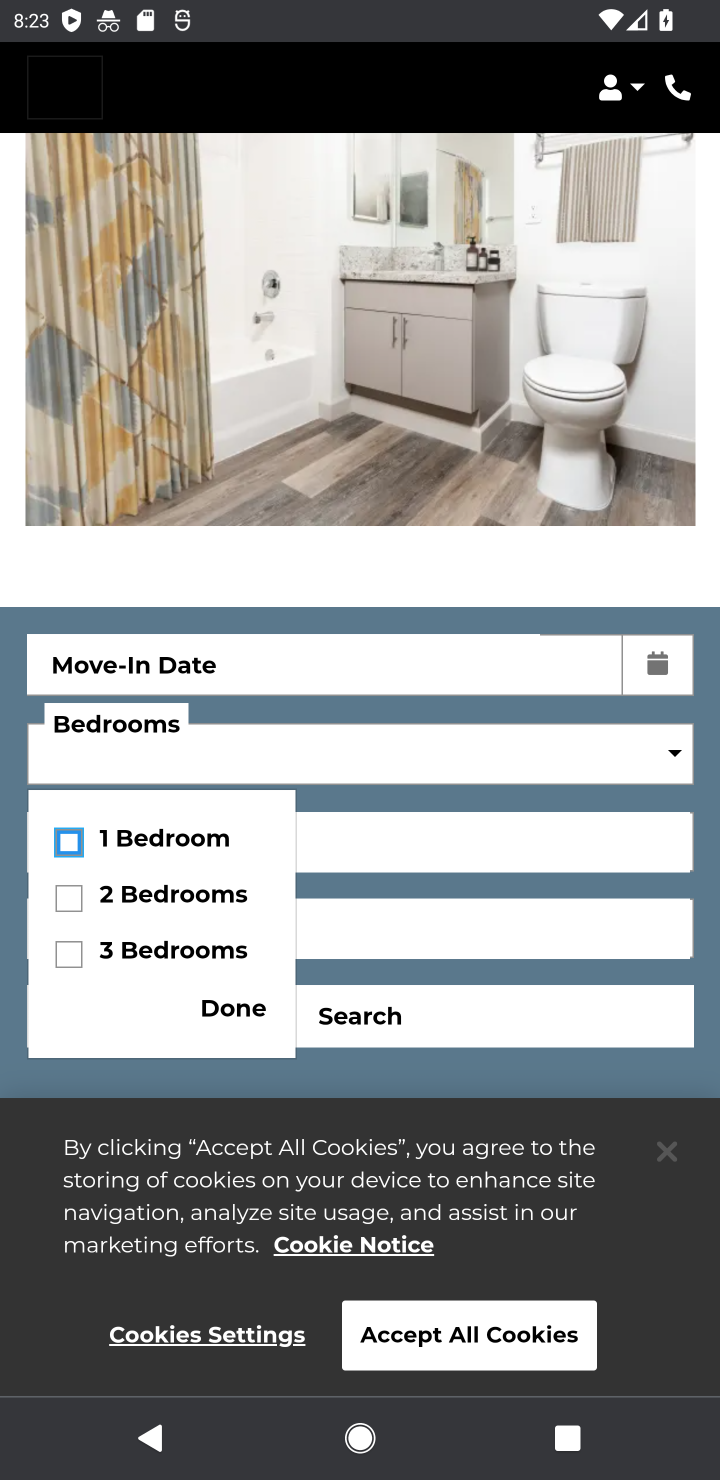
Step 33: click (74, 905)
Your task to perform on an android device: How much does a 2 bedroom apartment rent for in Los Angeles? Image 34: 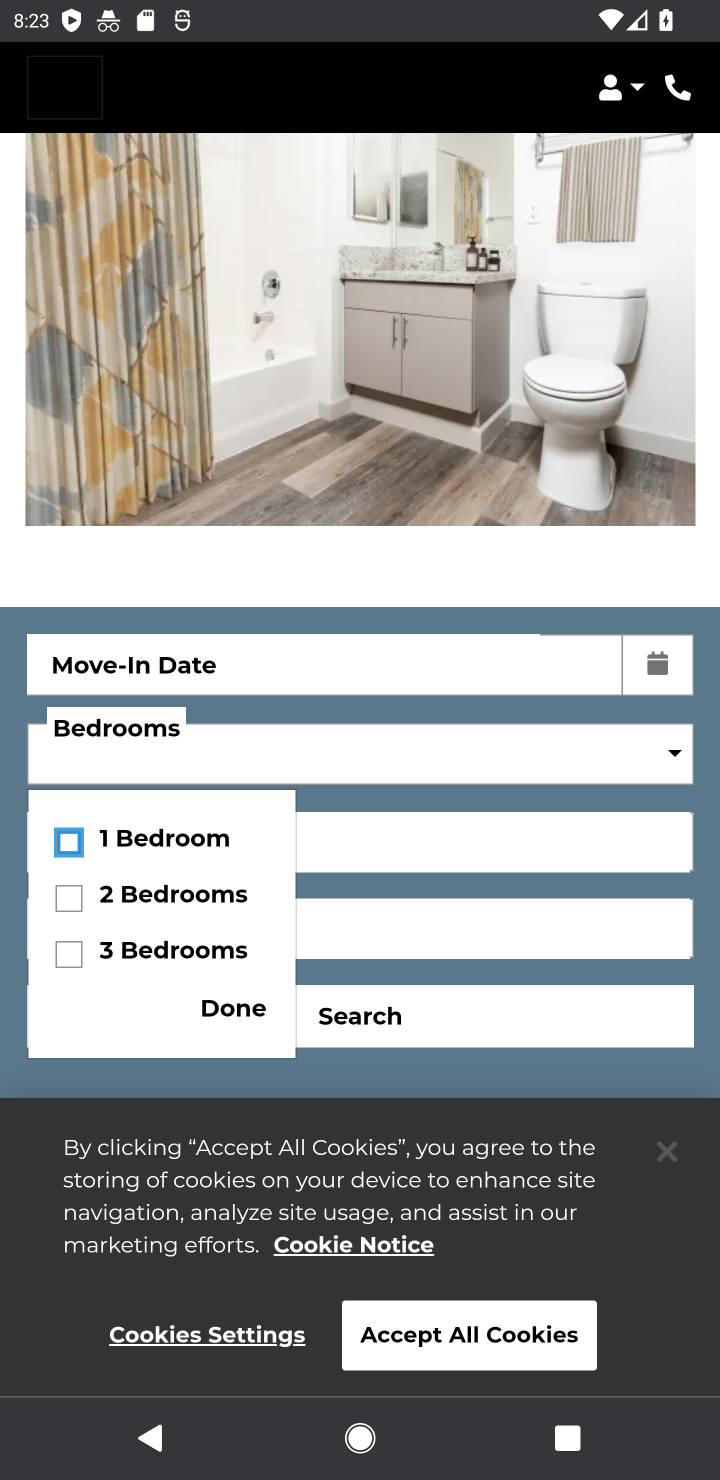
Step 34: click (64, 907)
Your task to perform on an android device: How much does a 2 bedroom apartment rent for in Los Angeles? Image 35: 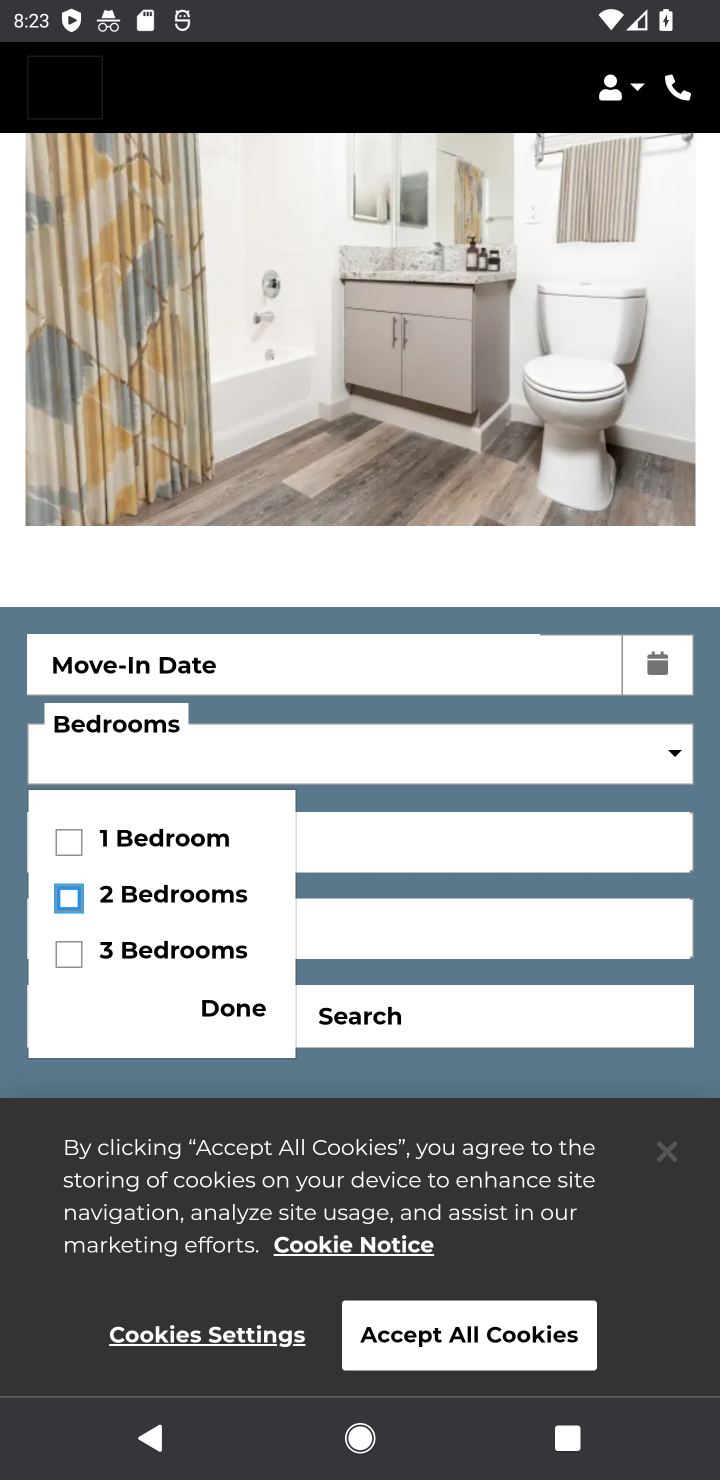
Step 35: click (415, 907)
Your task to perform on an android device: How much does a 2 bedroom apartment rent for in Los Angeles? Image 36: 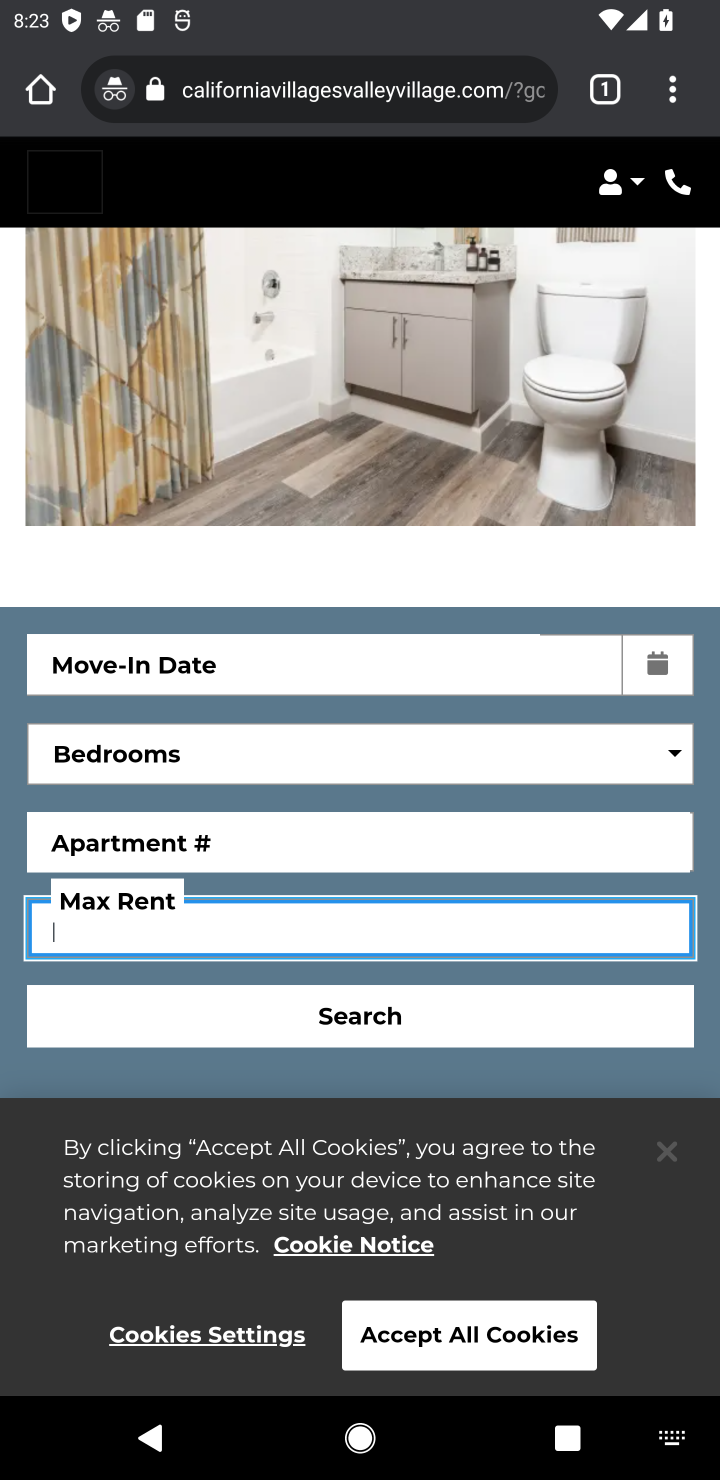
Step 36: click (366, 1023)
Your task to perform on an android device: How much does a 2 bedroom apartment rent for in Los Angeles? Image 37: 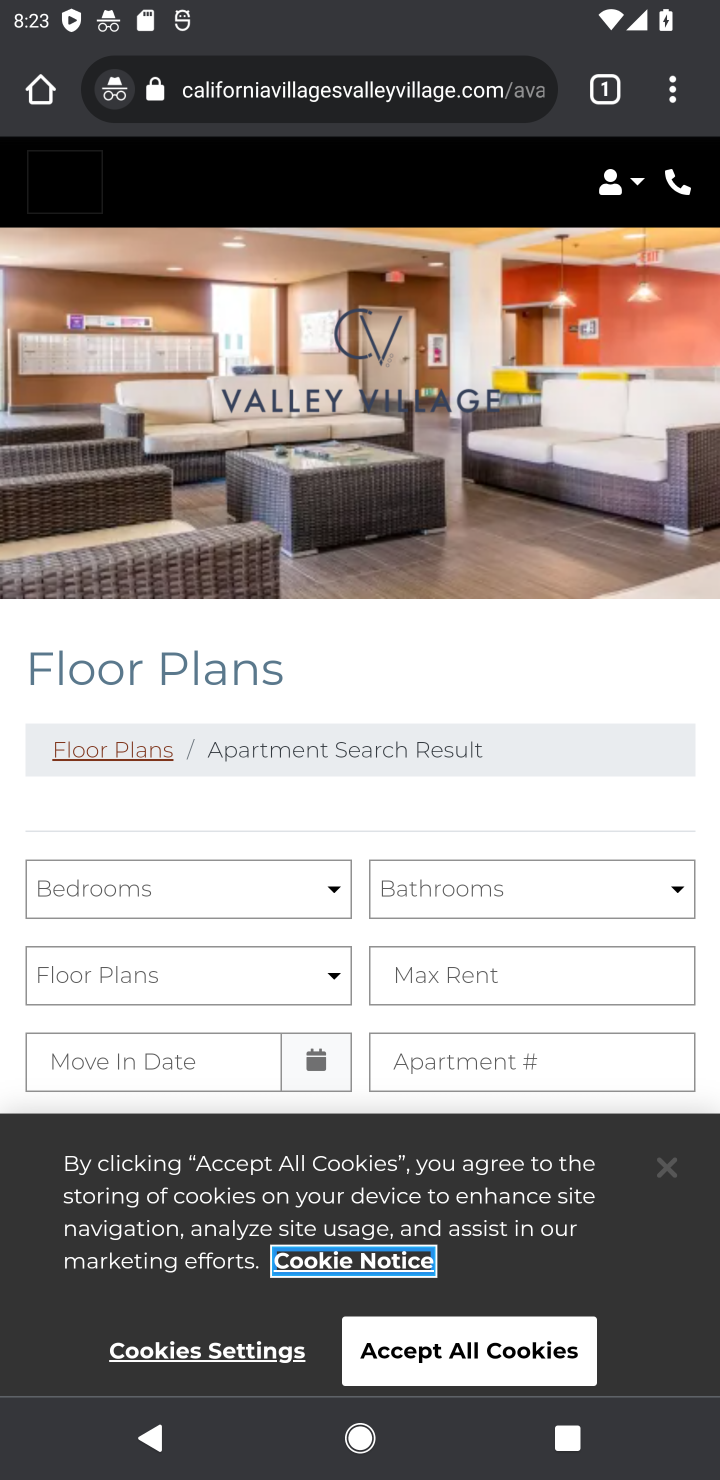
Step 37: task complete